Your task to perform on an android device: Clear the shopping cart on amazon.com. Add alienware area 51 to the cart on amazon.com, then select checkout. Image 0: 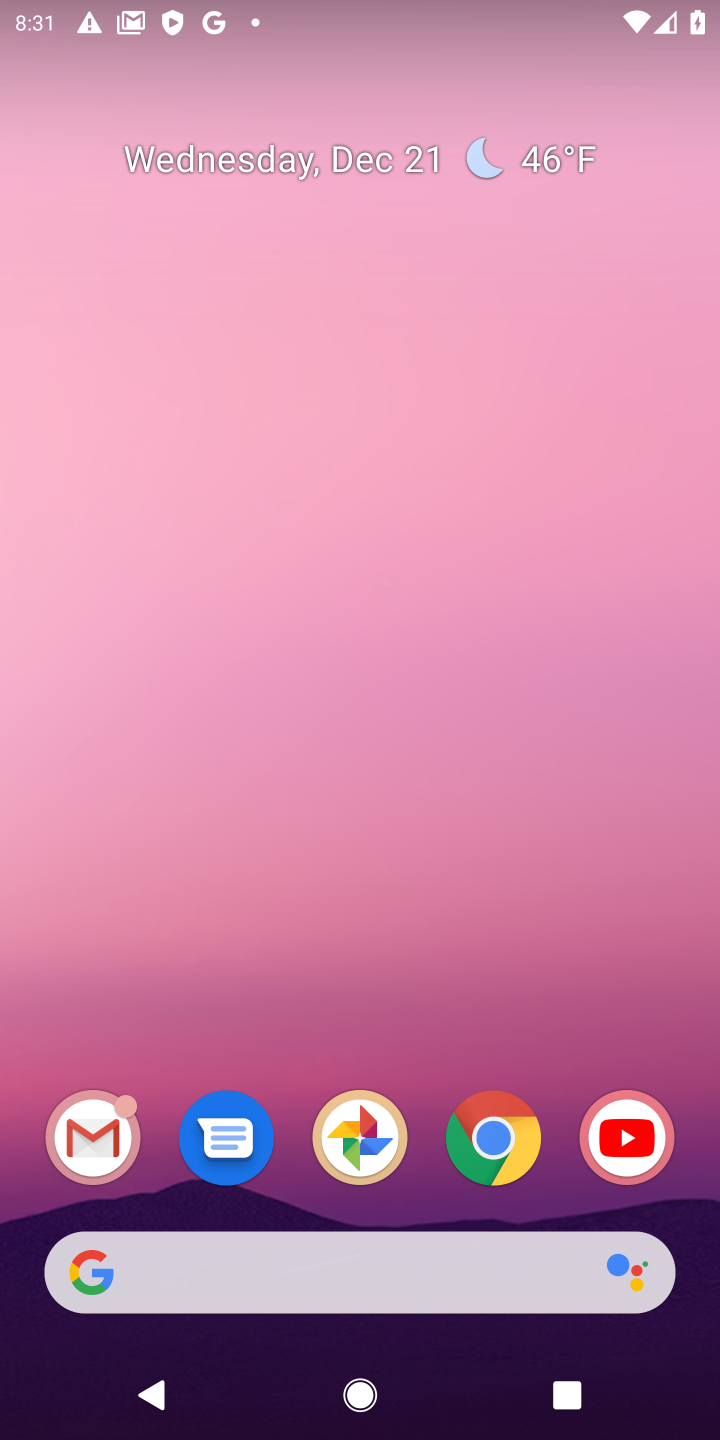
Step 0: click (503, 1148)
Your task to perform on an android device: Clear the shopping cart on amazon.com. Add alienware area 51 to the cart on amazon.com, then select checkout. Image 1: 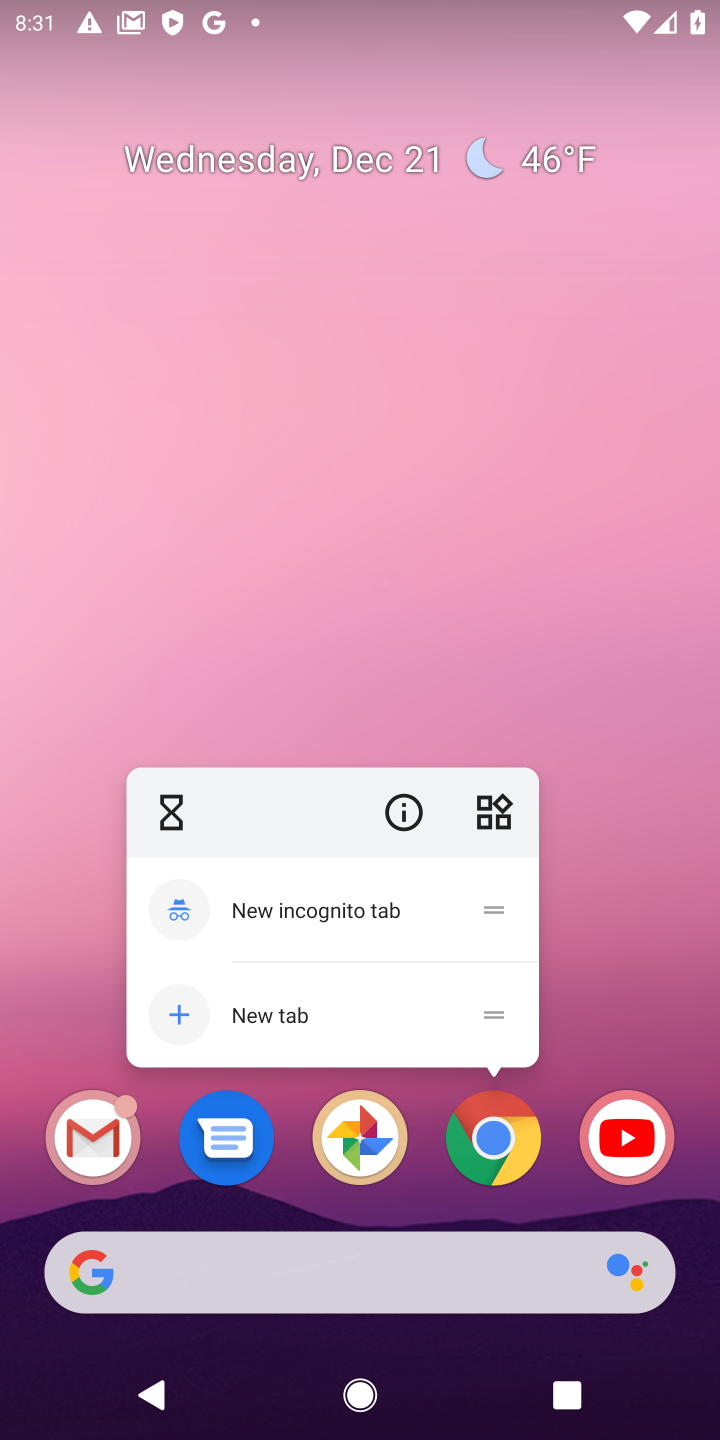
Step 1: click (503, 1148)
Your task to perform on an android device: Clear the shopping cart on amazon.com. Add alienware area 51 to the cart on amazon.com, then select checkout. Image 2: 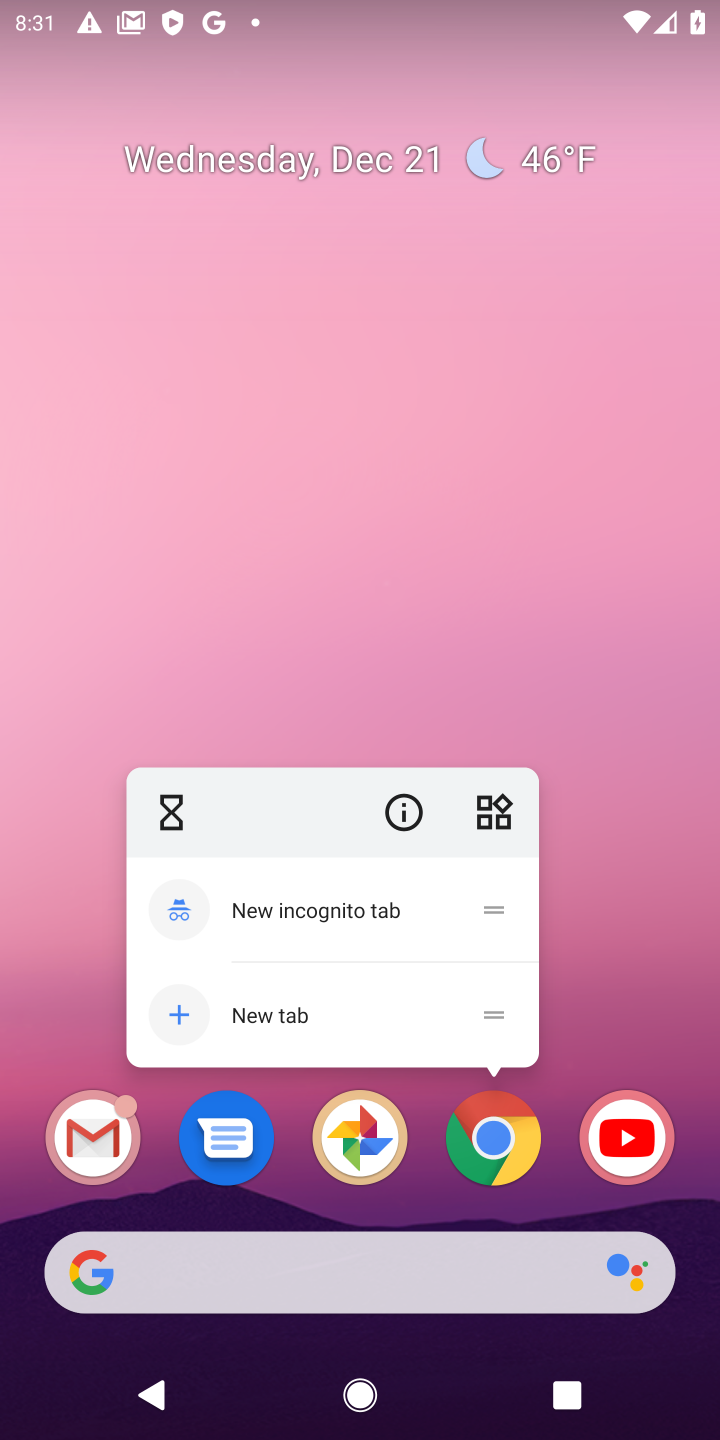
Step 2: click (503, 1148)
Your task to perform on an android device: Clear the shopping cart on amazon.com. Add alienware area 51 to the cart on amazon.com, then select checkout. Image 3: 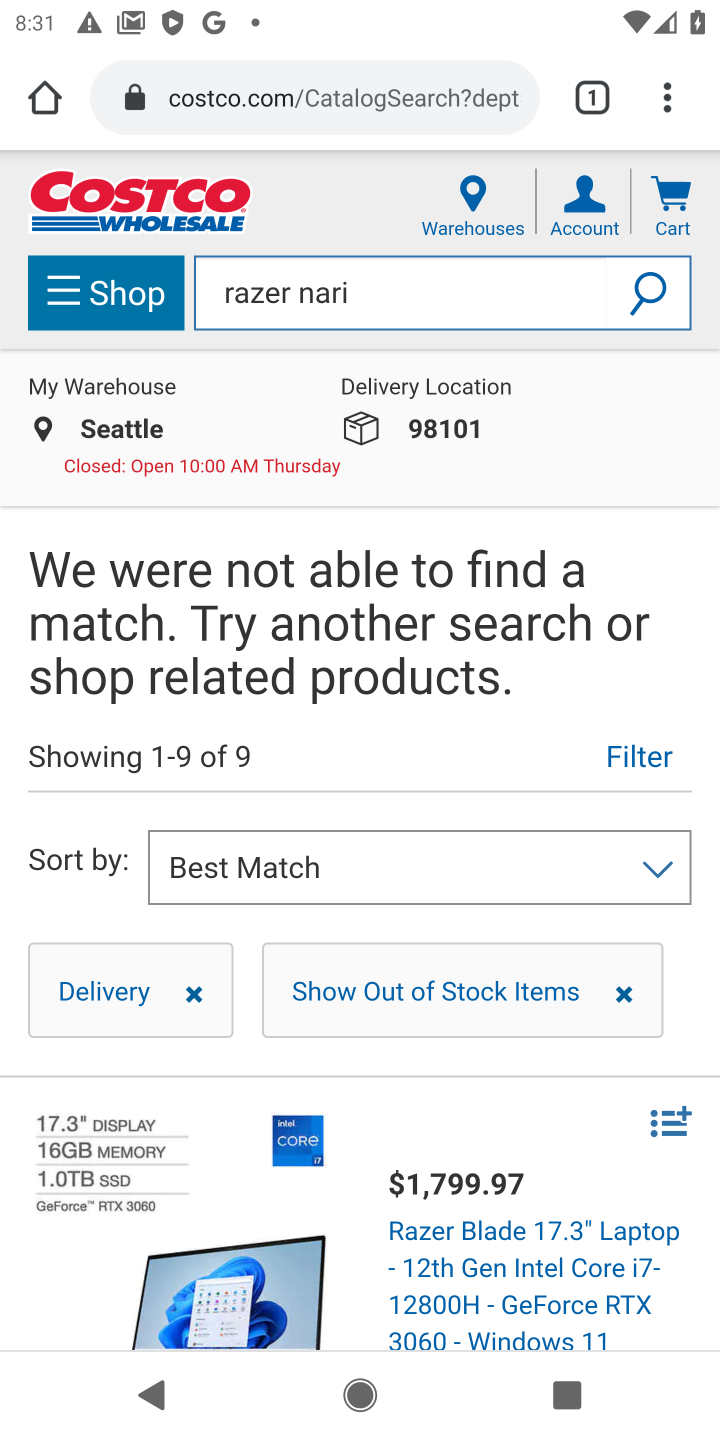
Step 3: click (260, 94)
Your task to perform on an android device: Clear the shopping cart on amazon.com. Add alienware area 51 to the cart on amazon.com, then select checkout. Image 4: 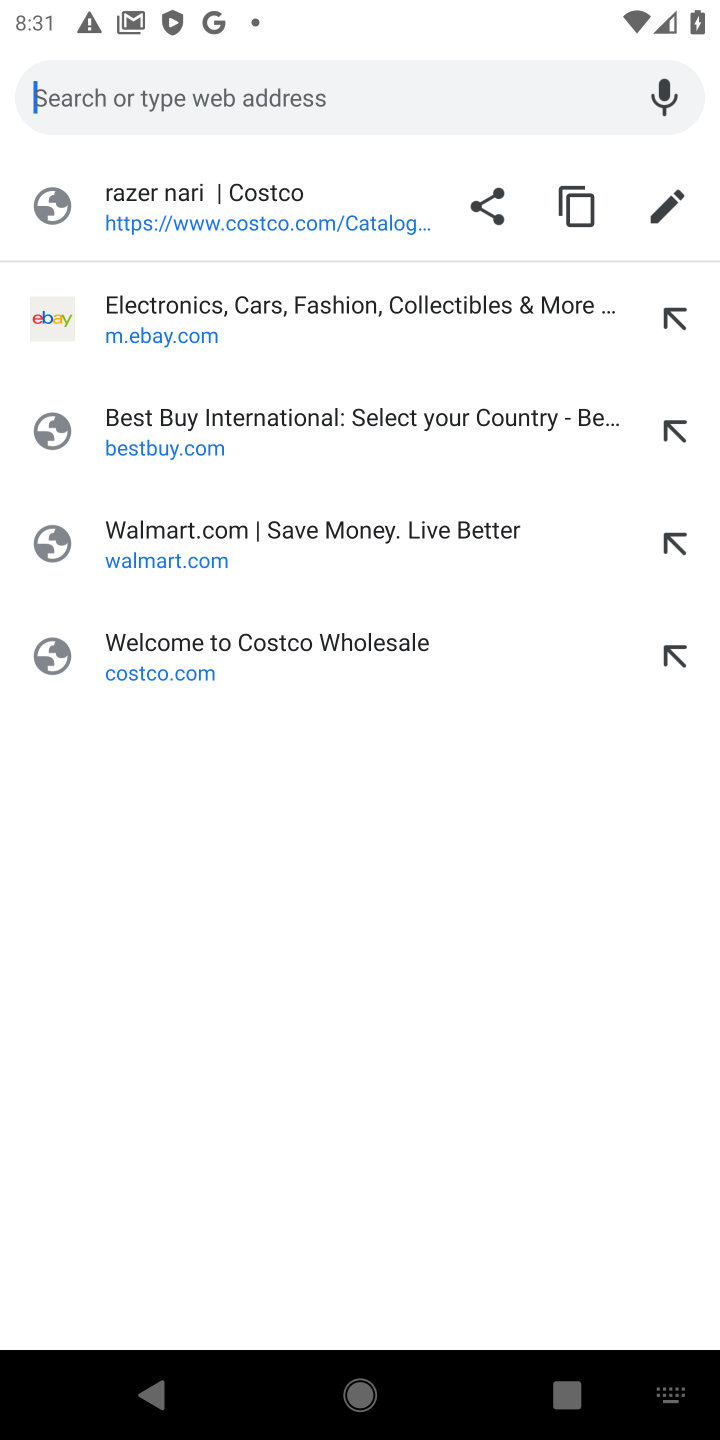
Step 4: type "amazon.com"
Your task to perform on an android device: Clear the shopping cart on amazon.com. Add alienware area 51 to the cart on amazon.com, then select checkout. Image 5: 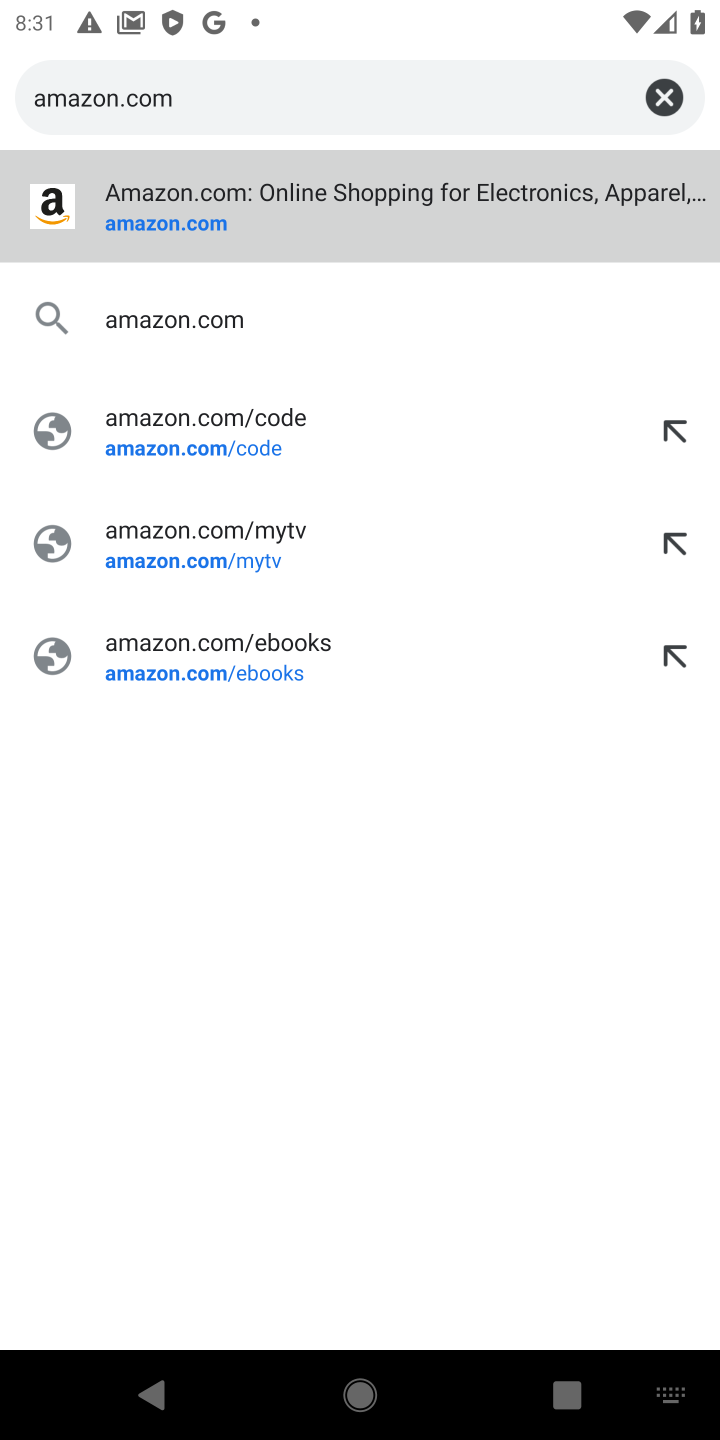
Step 5: click (137, 207)
Your task to perform on an android device: Clear the shopping cart on amazon.com. Add alienware area 51 to the cart on amazon.com, then select checkout. Image 6: 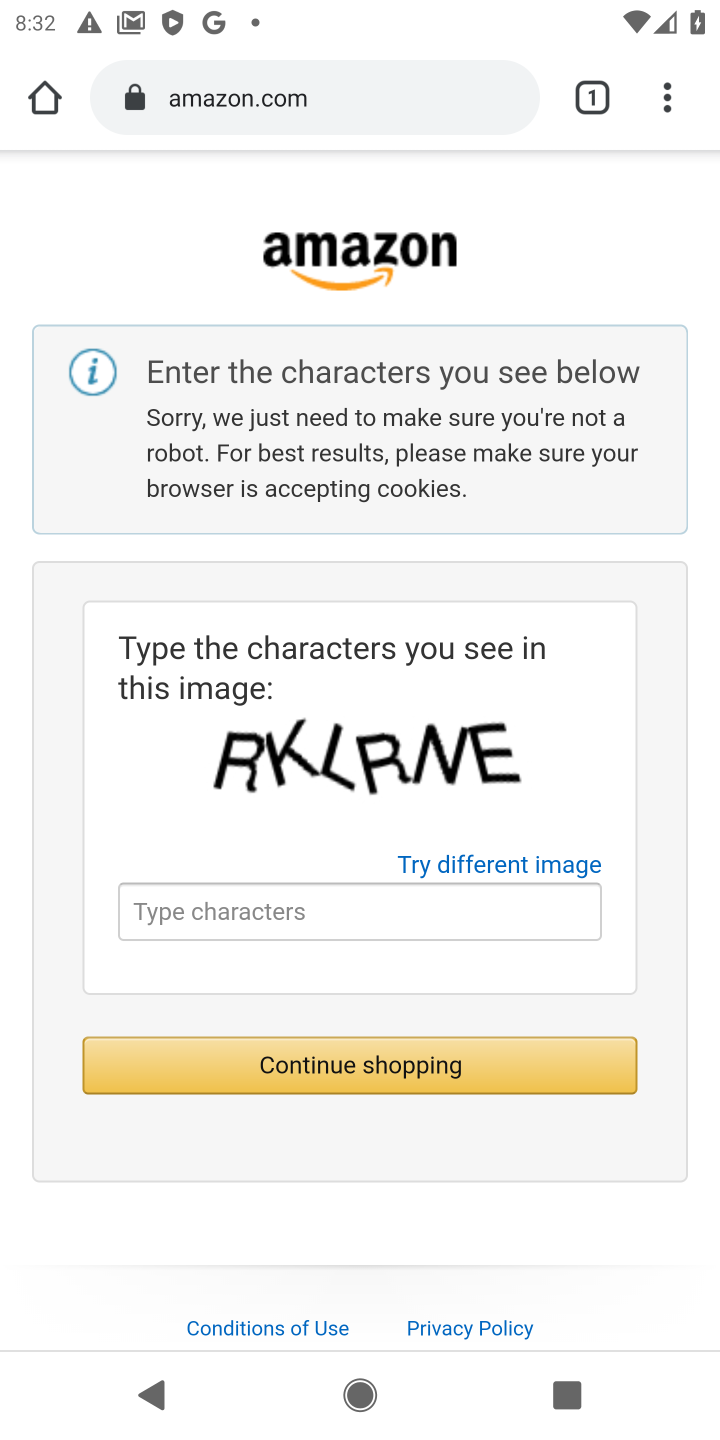
Step 6: click (221, 911)
Your task to perform on an android device: Clear the shopping cart on amazon.com. Add alienware area 51 to the cart on amazon.com, then select checkout. Image 7: 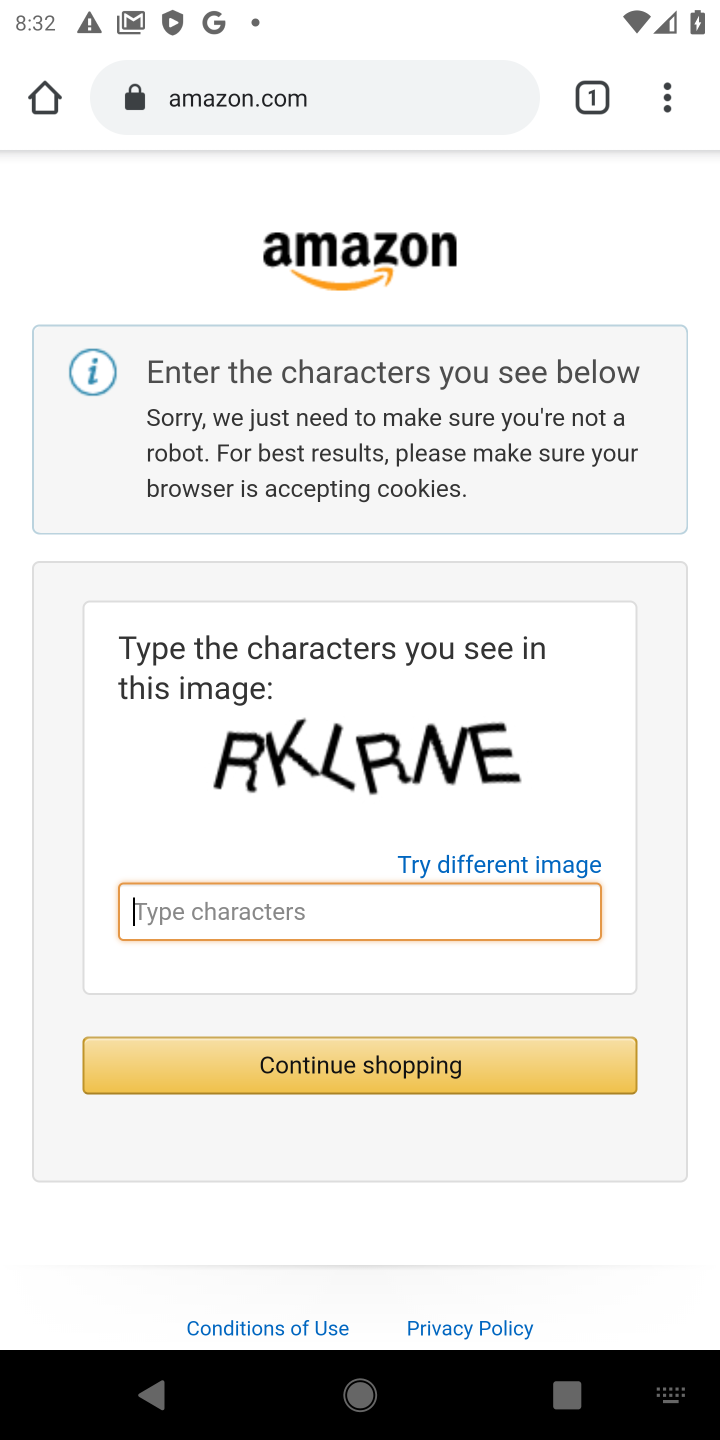
Step 7: type "RKLRNE"
Your task to perform on an android device: Clear the shopping cart on amazon.com. Add alienware area 51 to the cart on amazon.com, then select checkout. Image 8: 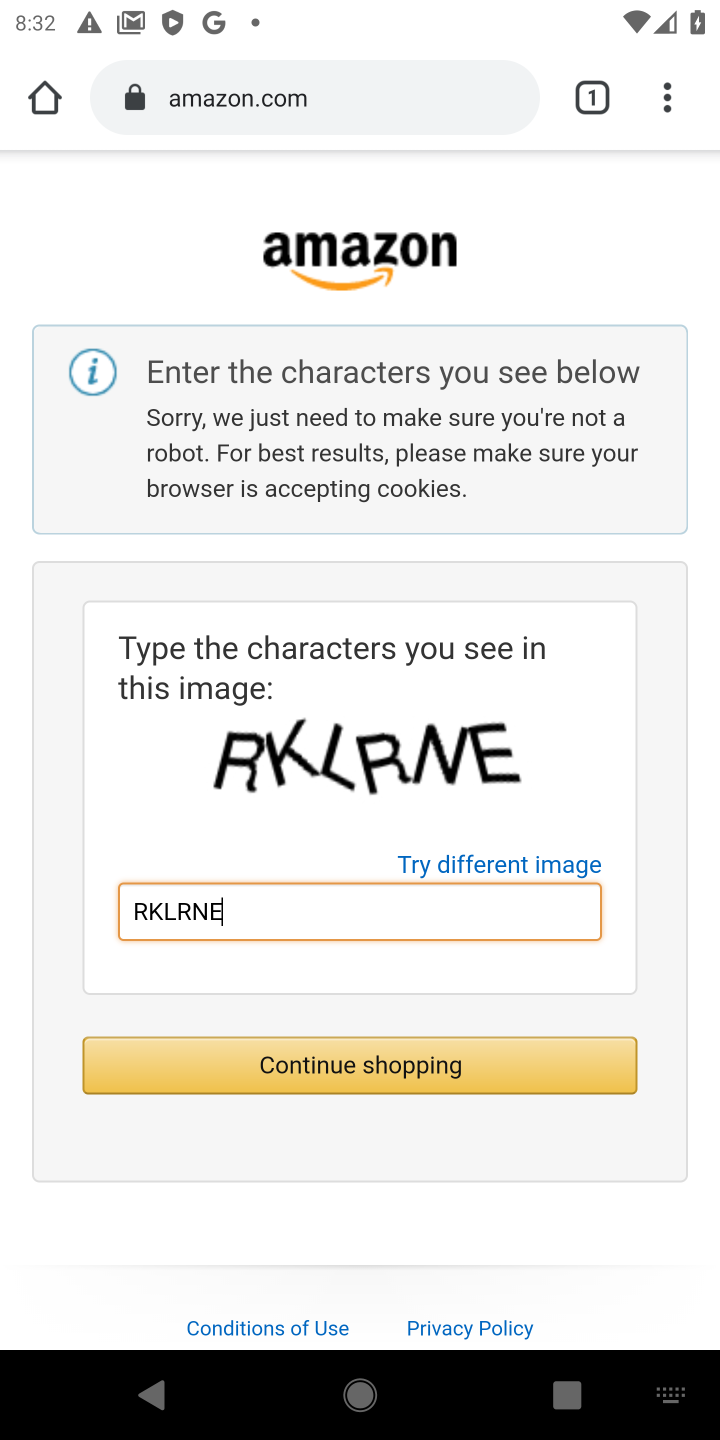
Step 8: click (283, 1069)
Your task to perform on an android device: Clear the shopping cart on amazon.com. Add alienware area 51 to the cart on amazon.com, then select checkout. Image 9: 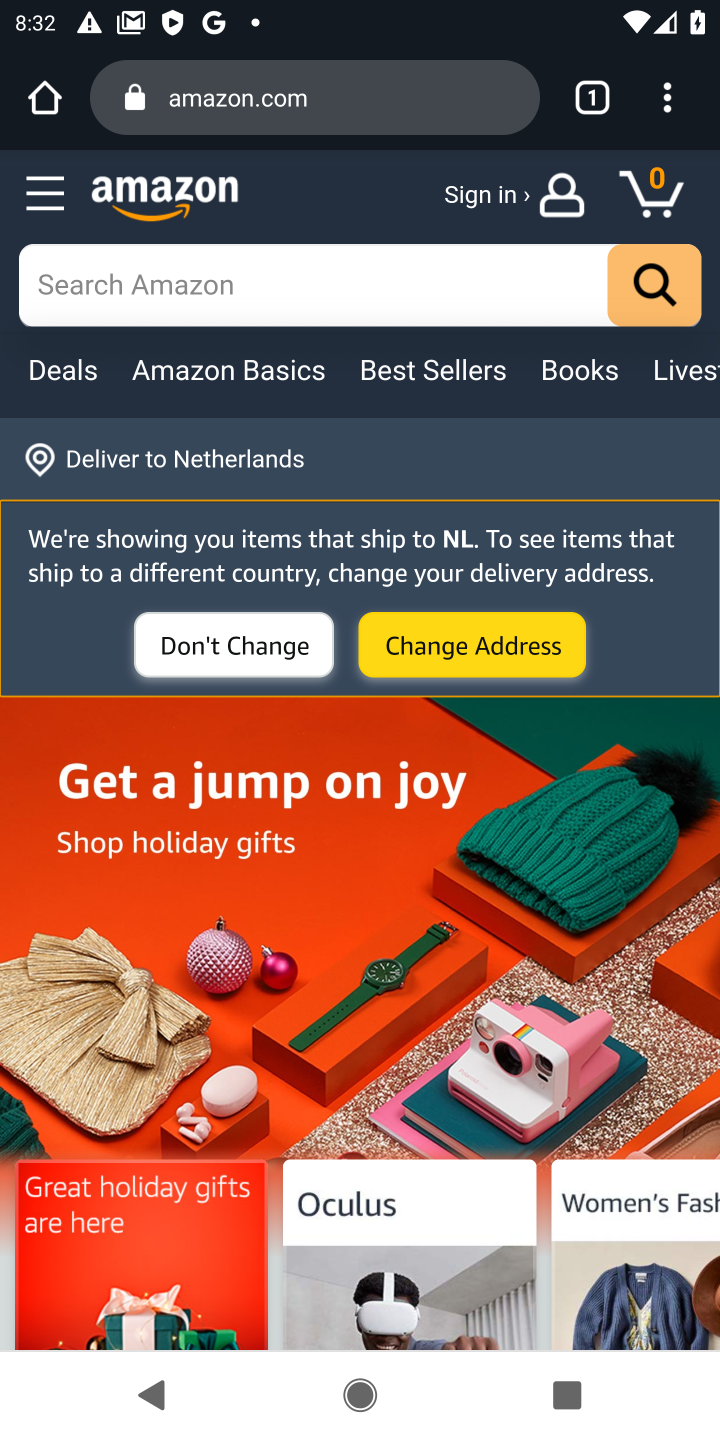
Step 9: click (655, 194)
Your task to perform on an android device: Clear the shopping cart on amazon.com. Add alienware area 51 to the cart on amazon.com, then select checkout. Image 10: 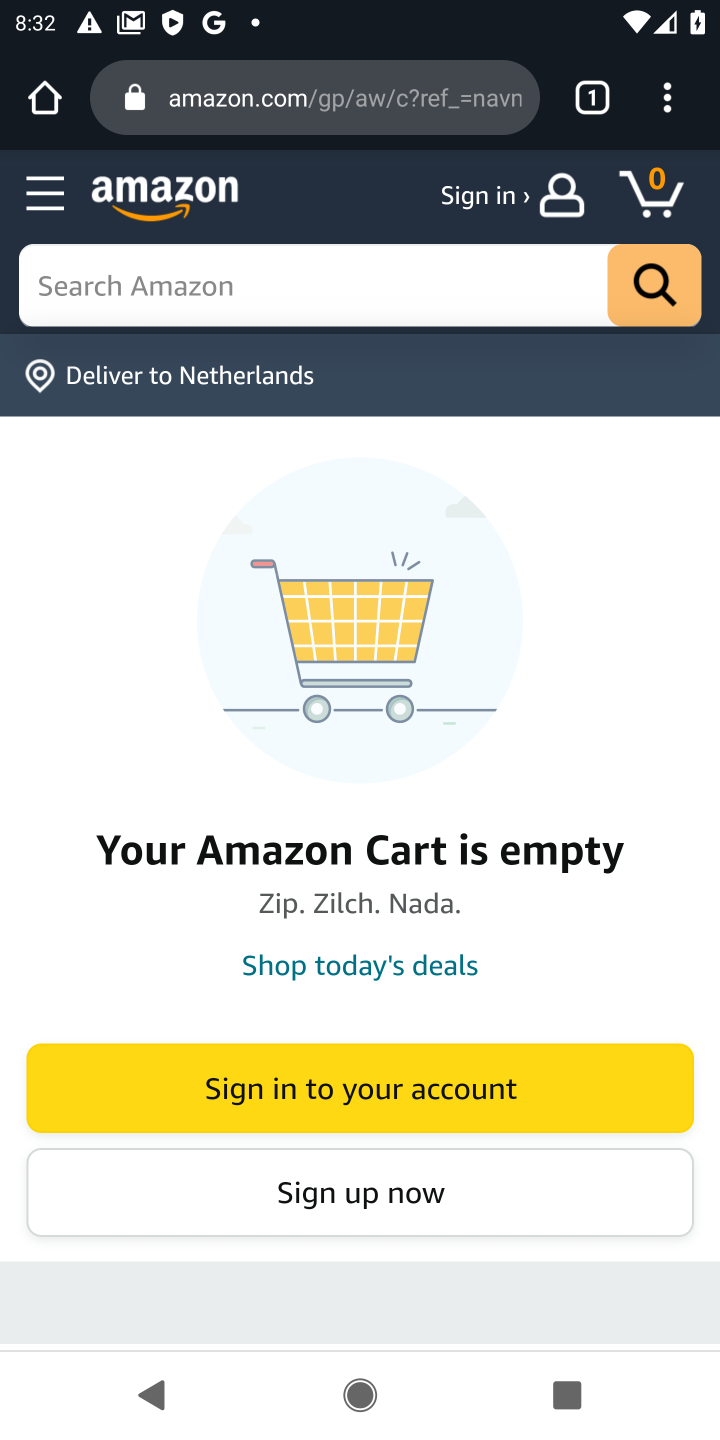
Step 10: click (74, 299)
Your task to perform on an android device: Clear the shopping cart on amazon.com. Add alienware area 51 to the cart on amazon.com, then select checkout. Image 11: 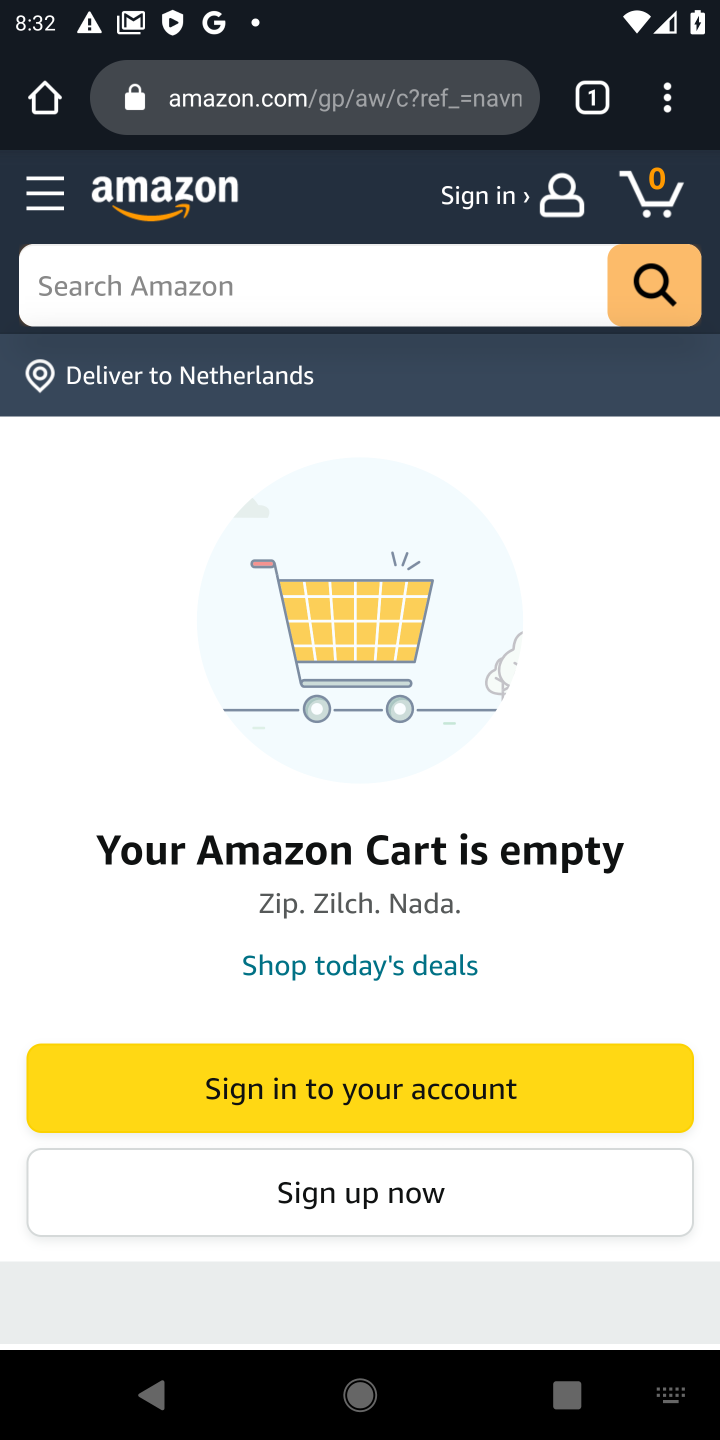
Step 11: type "alienware area 51"
Your task to perform on an android device: Clear the shopping cart on amazon.com. Add alienware area 51 to the cart on amazon.com, then select checkout. Image 12: 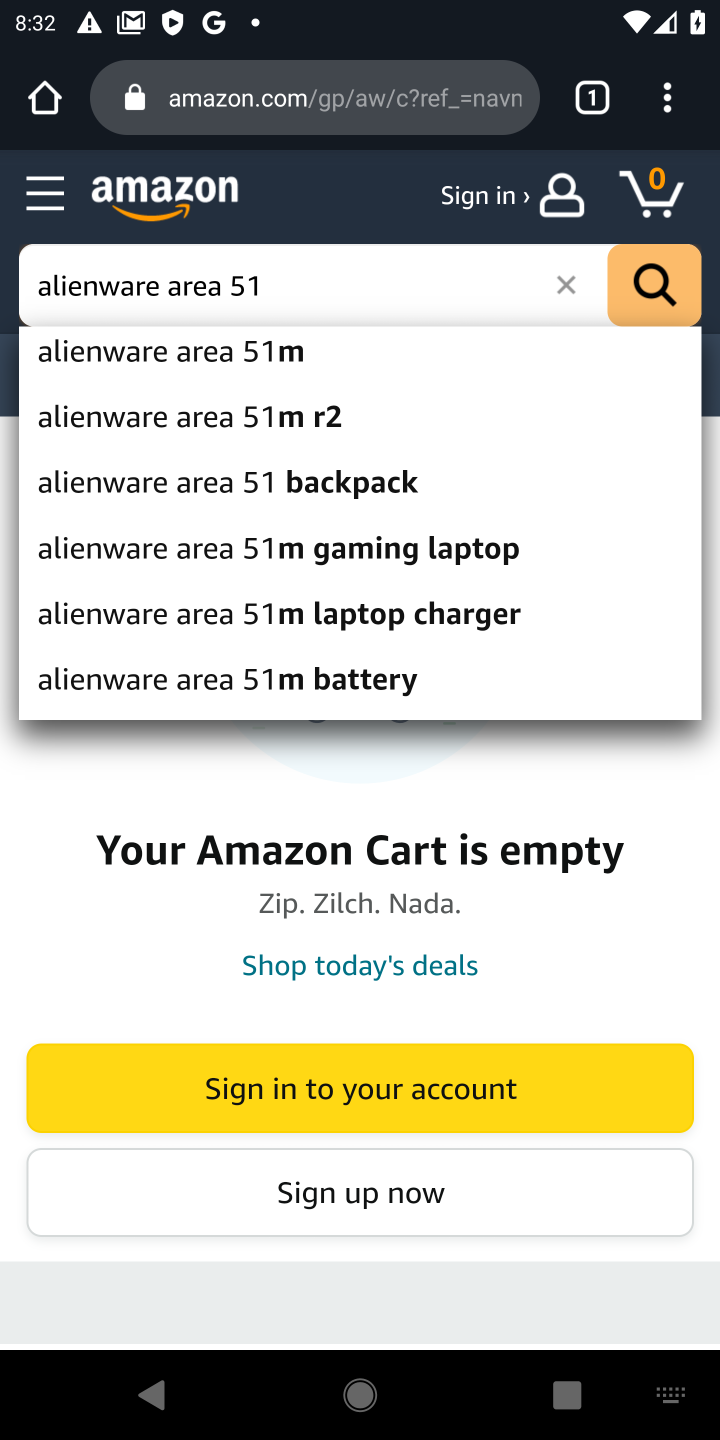
Step 12: click (658, 286)
Your task to perform on an android device: Clear the shopping cart on amazon.com. Add alienware area 51 to the cart on amazon.com, then select checkout. Image 13: 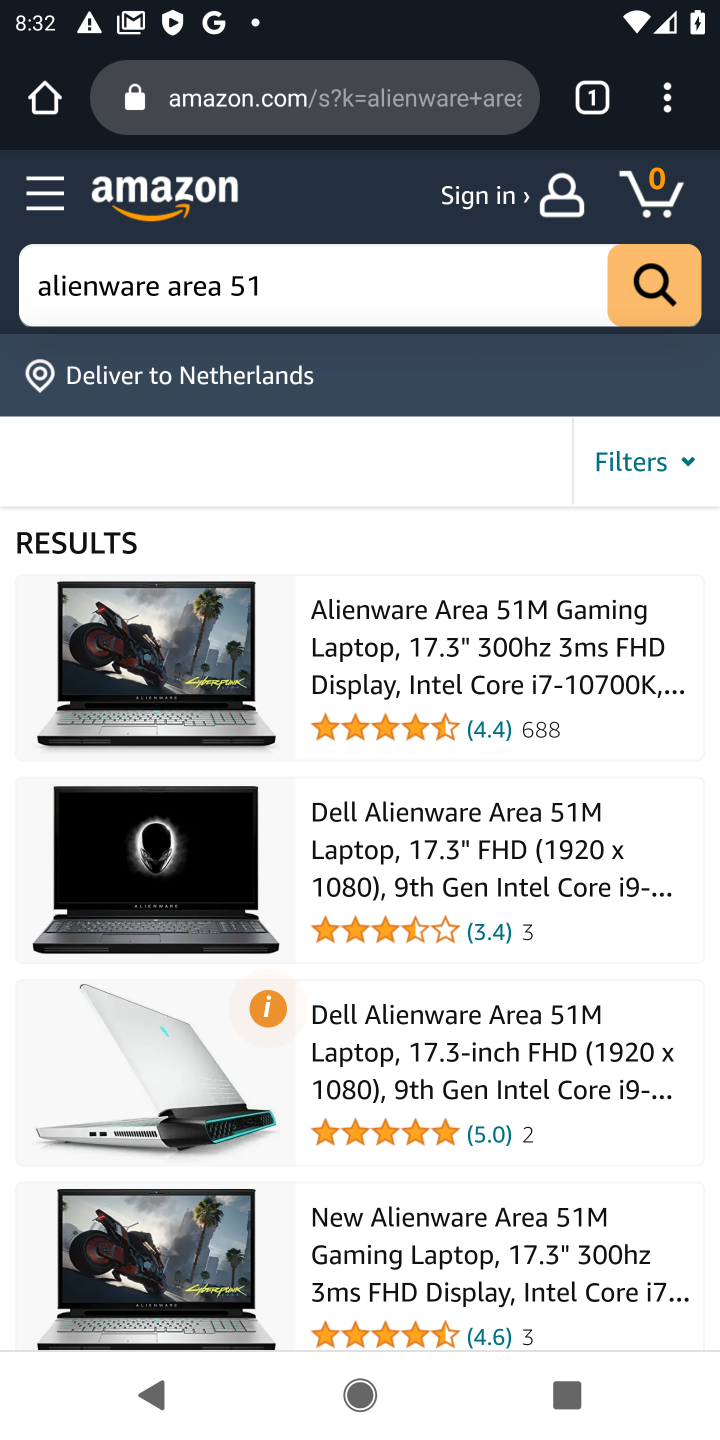
Step 13: drag from (444, 977) to (429, 619)
Your task to perform on an android device: Clear the shopping cart on amazon.com. Add alienware area 51 to the cart on amazon.com, then select checkout. Image 14: 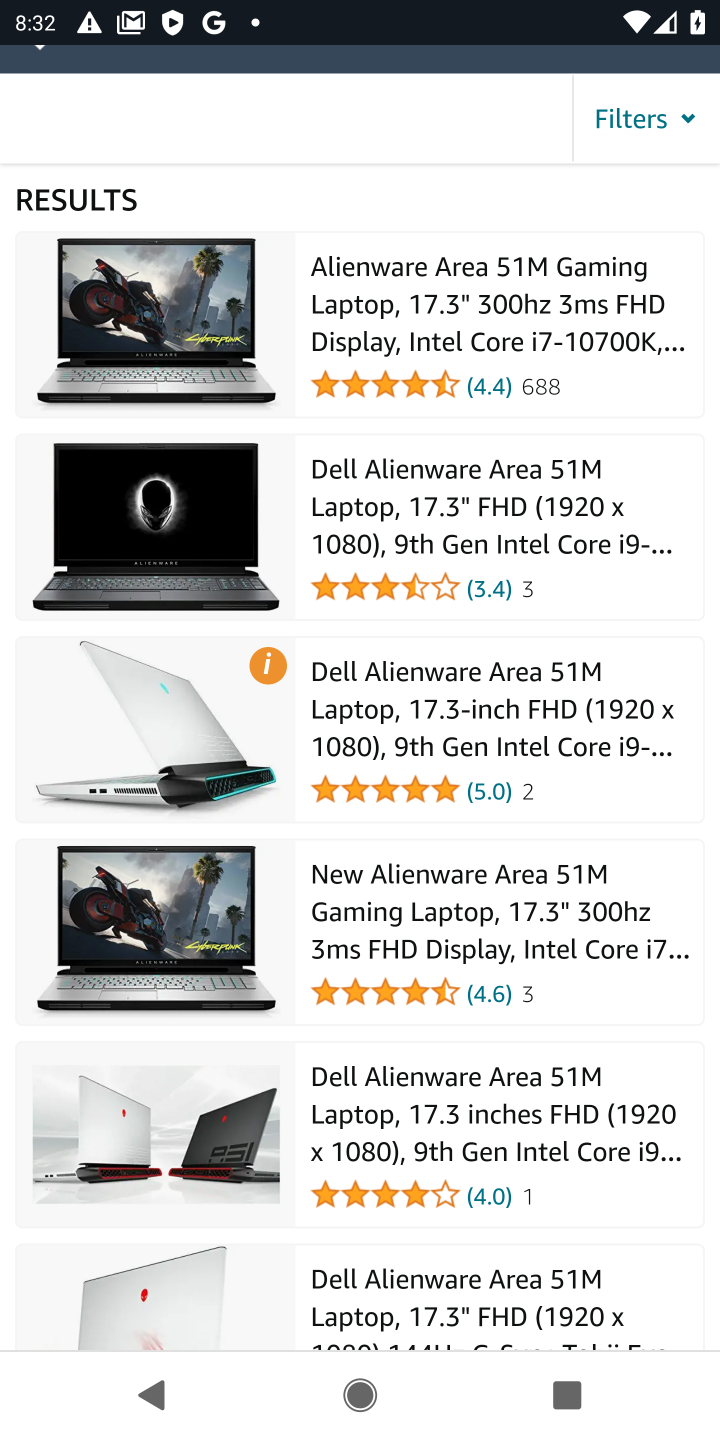
Step 14: drag from (400, 1083) to (376, 667)
Your task to perform on an android device: Clear the shopping cart on amazon.com. Add alienware area 51 to the cart on amazon.com, then select checkout. Image 15: 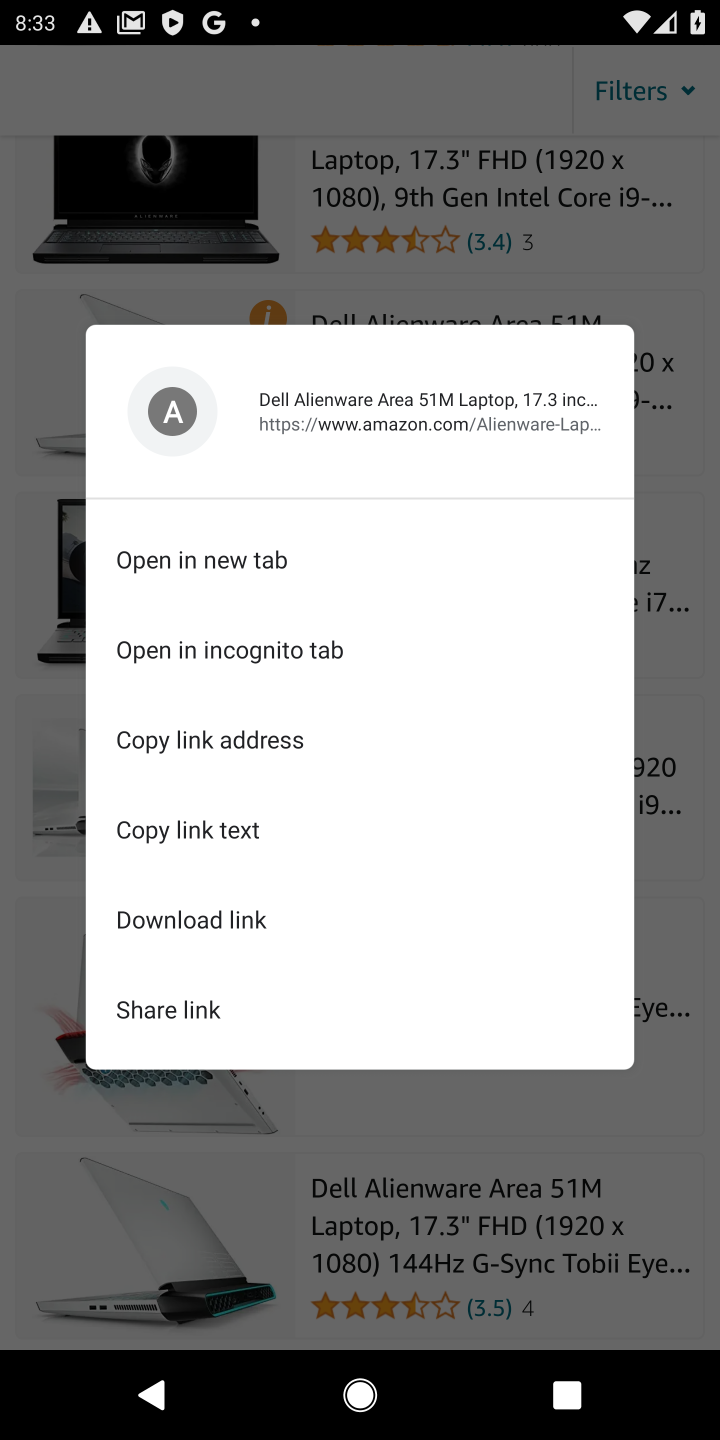
Step 15: drag from (665, 1091) to (674, 917)
Your task to perform on an android device: Clear the shopping cart on amazon.com. Add alienware area 51 to the cart on amazon.com, then select checkout. Image 16: 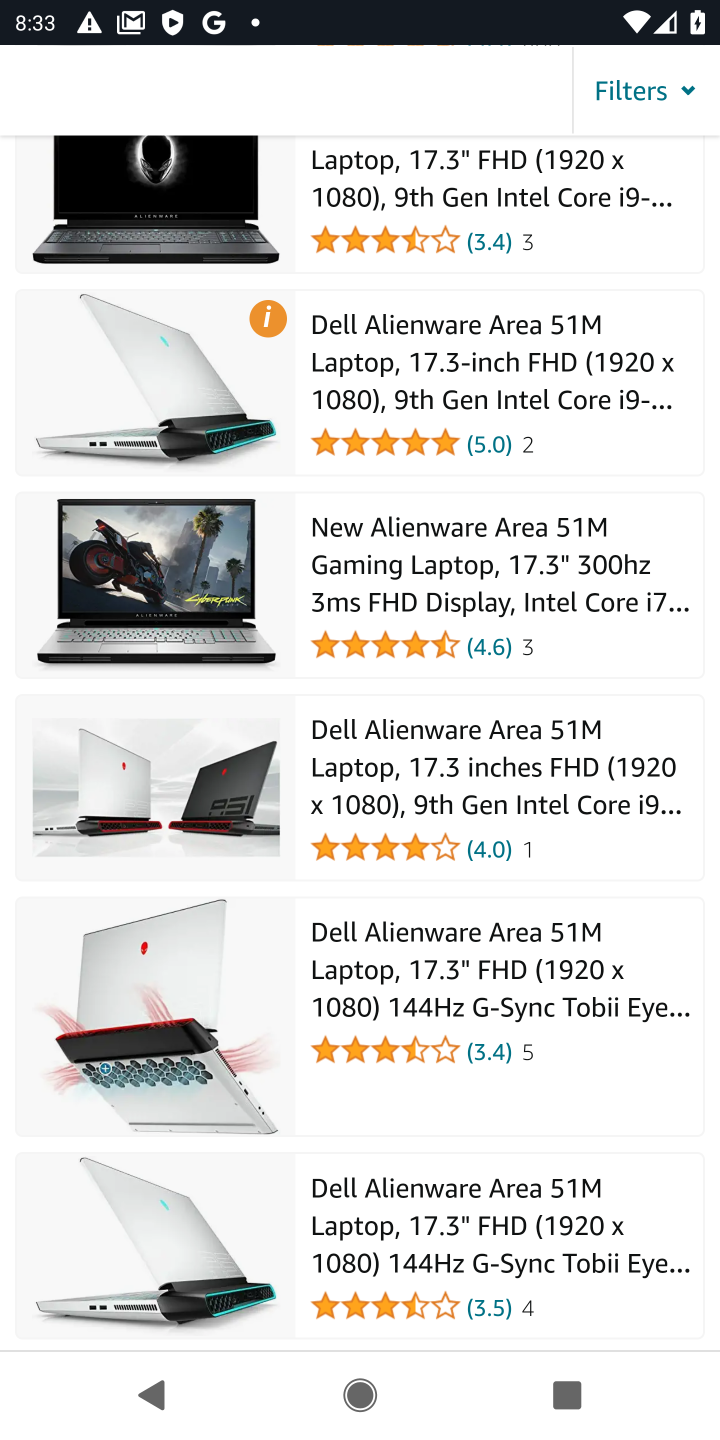
Step 16: drag from (452, 1093) to (472, 699)
Your task to perform on an android device: Clear the shopping cart on amazon.com. Add alienware area 51 to the cart on amazon.com, then select checkout. Image 17: 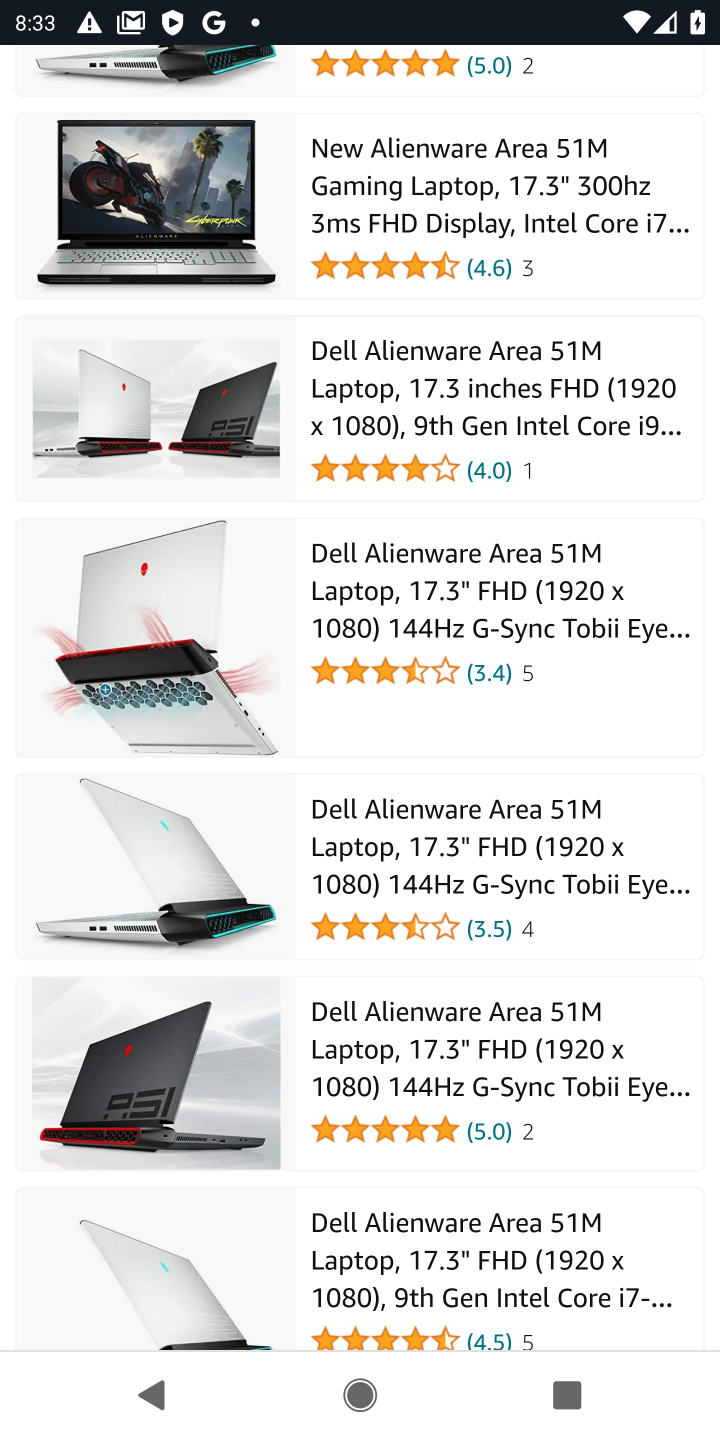
Step 17: drag from (432, 1035) to (444, 672)
Your task to perform on an android device: Clear the shopping cart on amazon.com. Add alienware area 51 to the cart on amazon.com, then select checkout. Image 18: 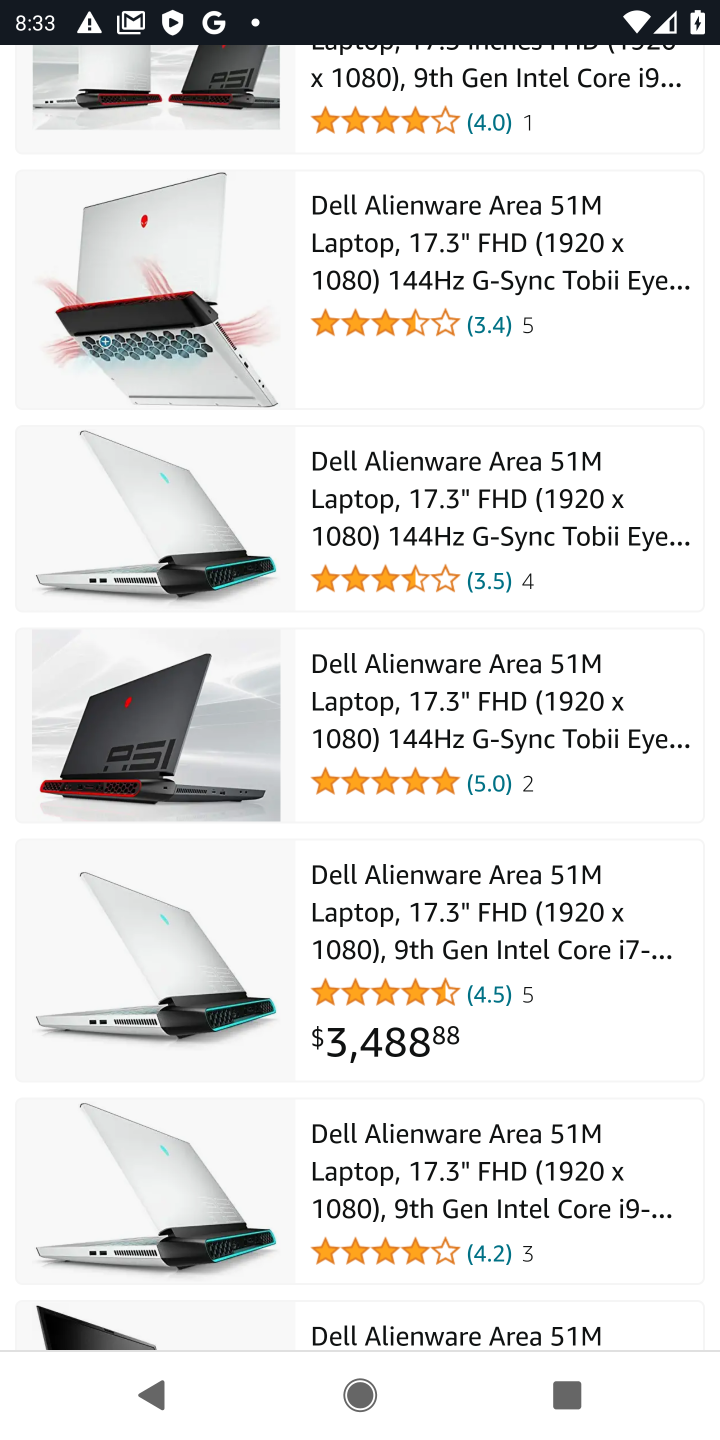
Step 18: drag from (407, 1094) to (390, 689)
Your task to perform on an android device: Clear the shopping cart on amazon.com. Add alienware area 51 to the cart on amazon.com, then select checkout. Image 19: 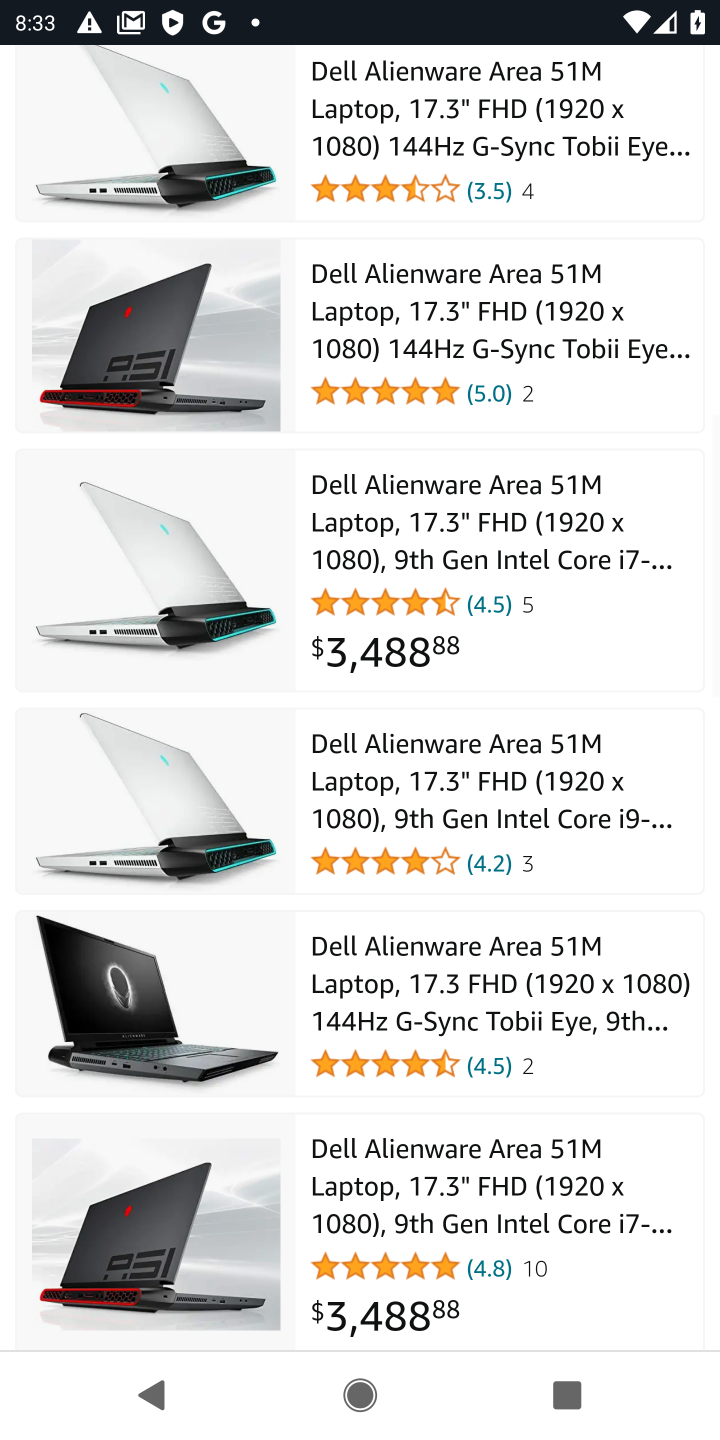
Step 19: drag from (505, 1124) to (470, 636)
Your task to perform on an android device: Clear the shopping cart on amazon.com. Add alienware area 51 to the cart on amazon.com, then select checkout. Image 20: 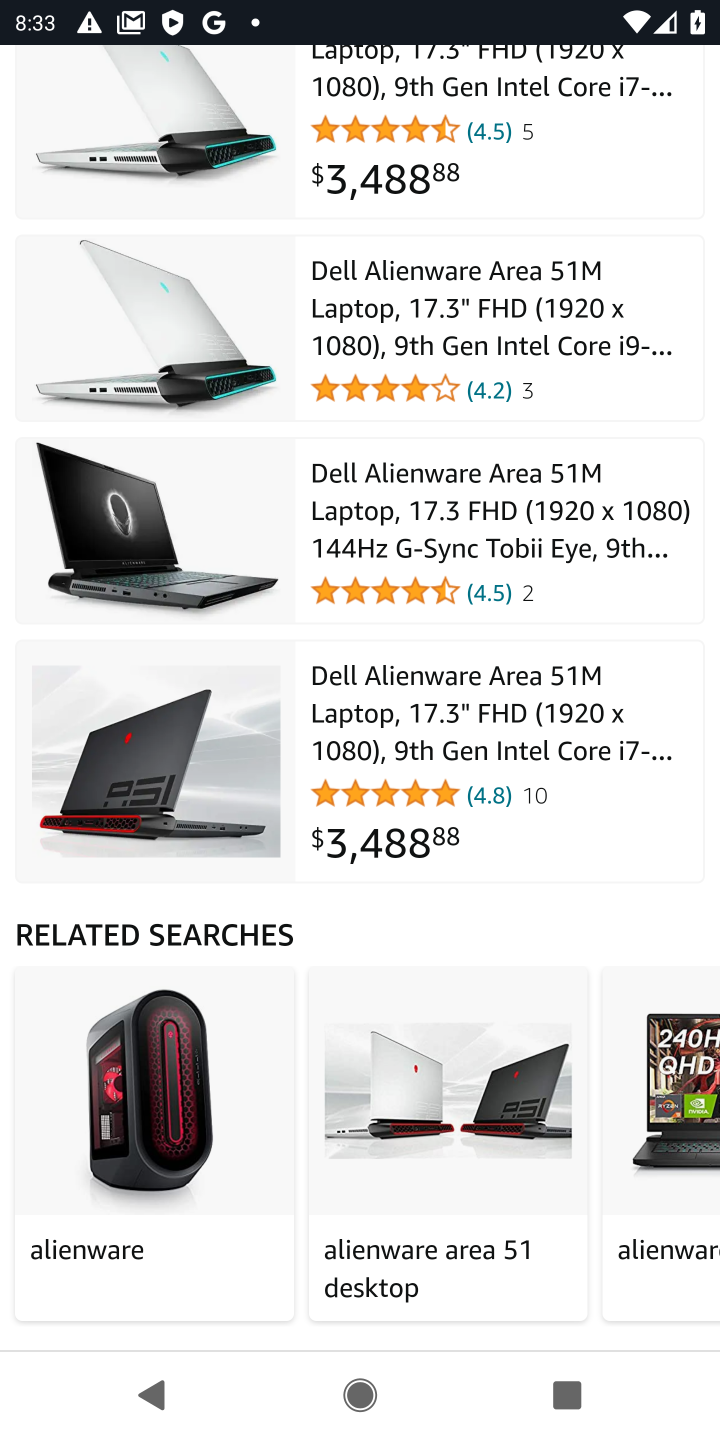
Step 20: drag from (493, 1181) to (436, 695)
Your task to perform on an android device: Clear the shopping cart on amazon.com. Add alienware area 51 to the cart on amazon.com, then select checkout. Image 21: 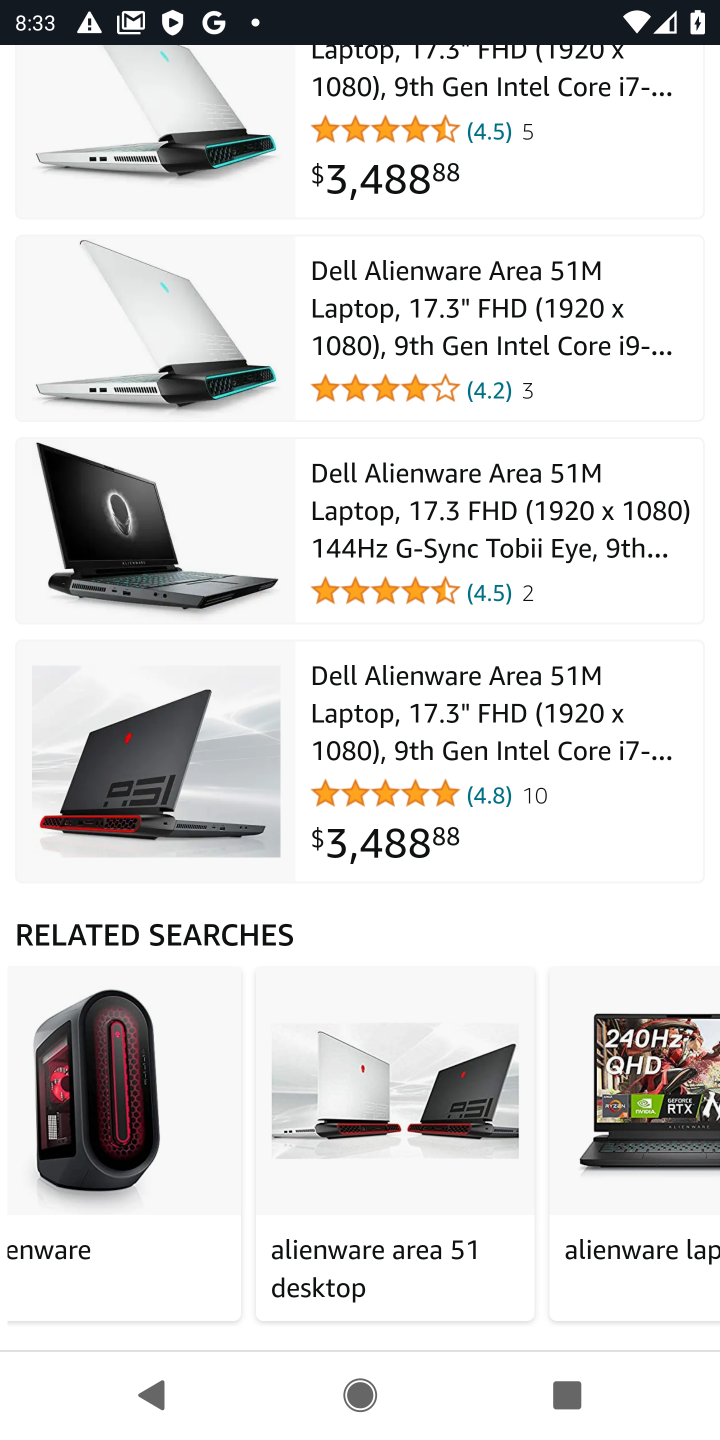
Step 21: drag from (550, 1110) to (535, 774)
Your task to perform on an android device: Clear the shopping cart on amazon.com. Add alienware area 51 to the cart on amazon.com, then select checkout. Image 22: 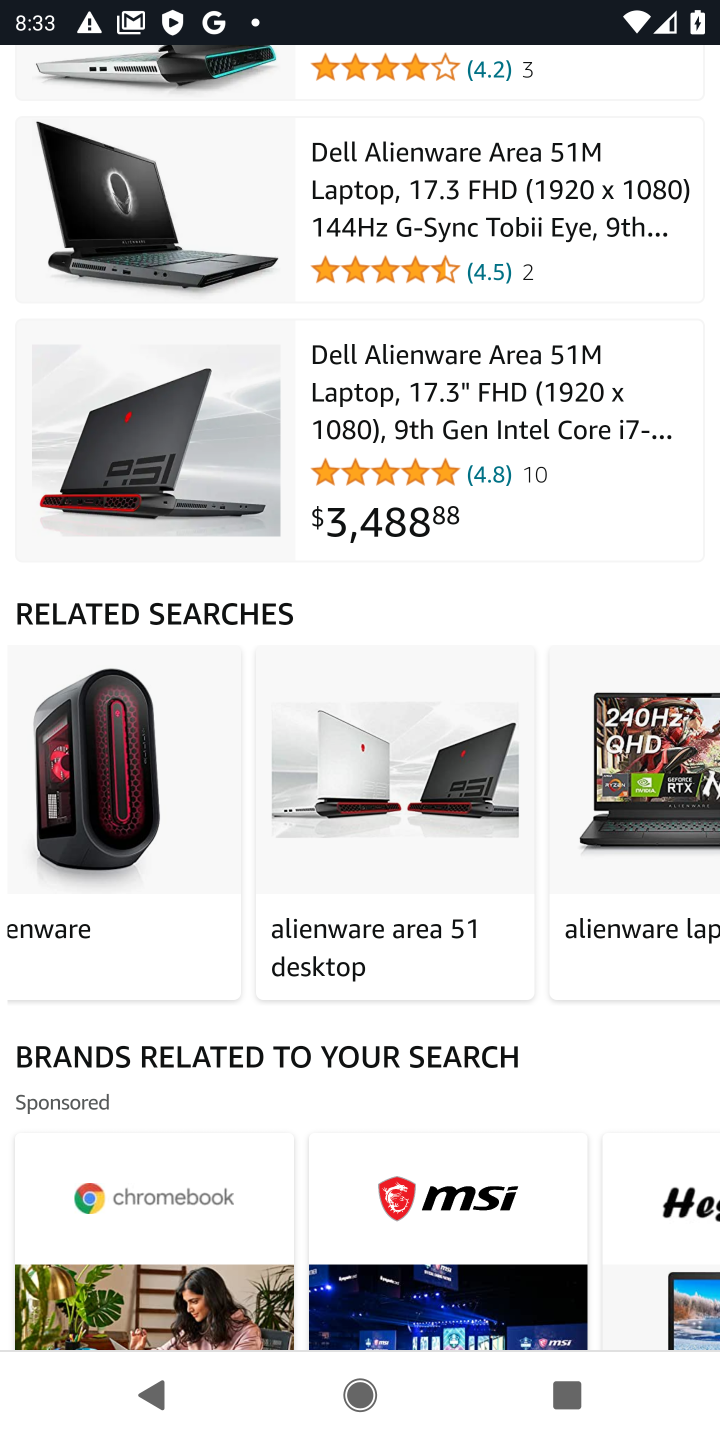
Step 22: drag from (460, 1149) to (451, 468)
Your task to perform on an android device: Clear the shopping cart on amazon.com. Add alienware area 51 to the cart on amazon.com, then select checkout. Image 23: 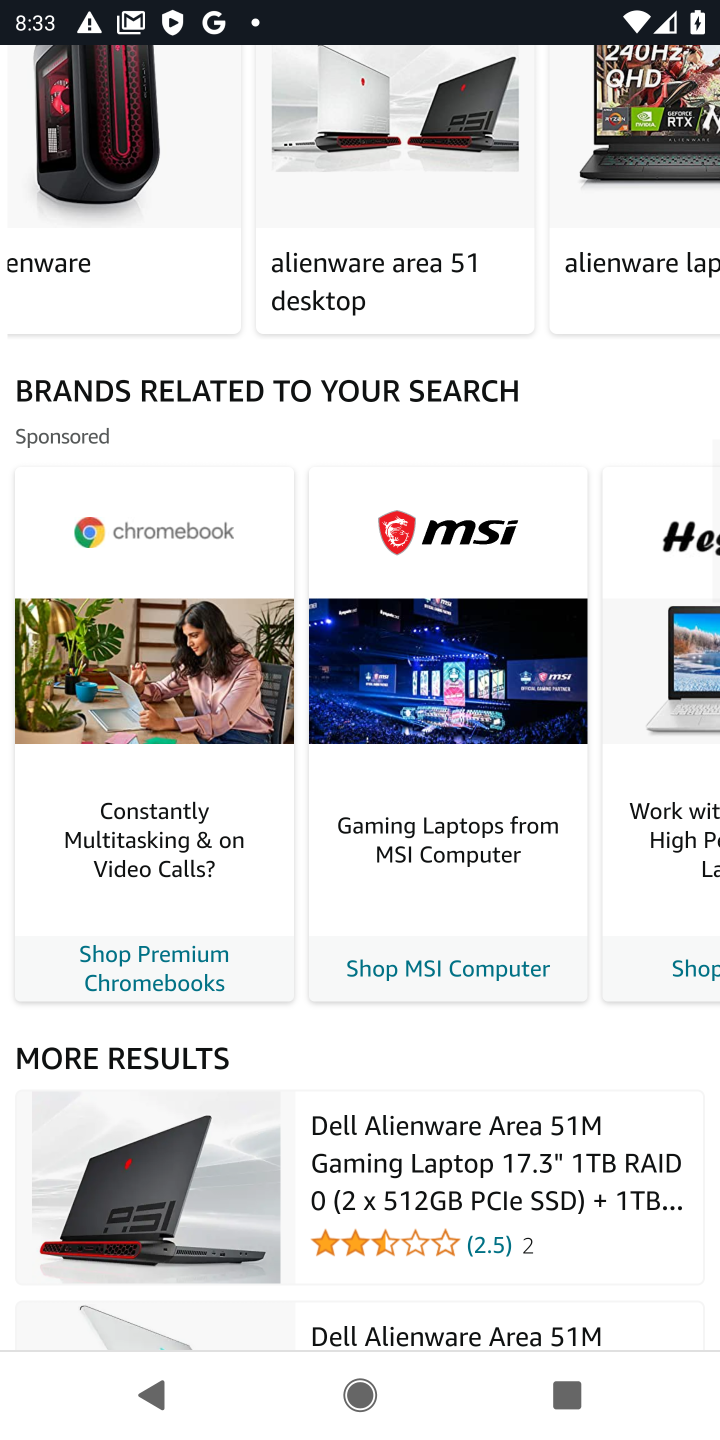
Step 23: drag from (417, 1181) to (390, 717)
Your task to perform on an android device: Clear the shopping cart on amazon.com. Add alienware area 51 to the cart on amazon.com, then select checkout. Image 24: 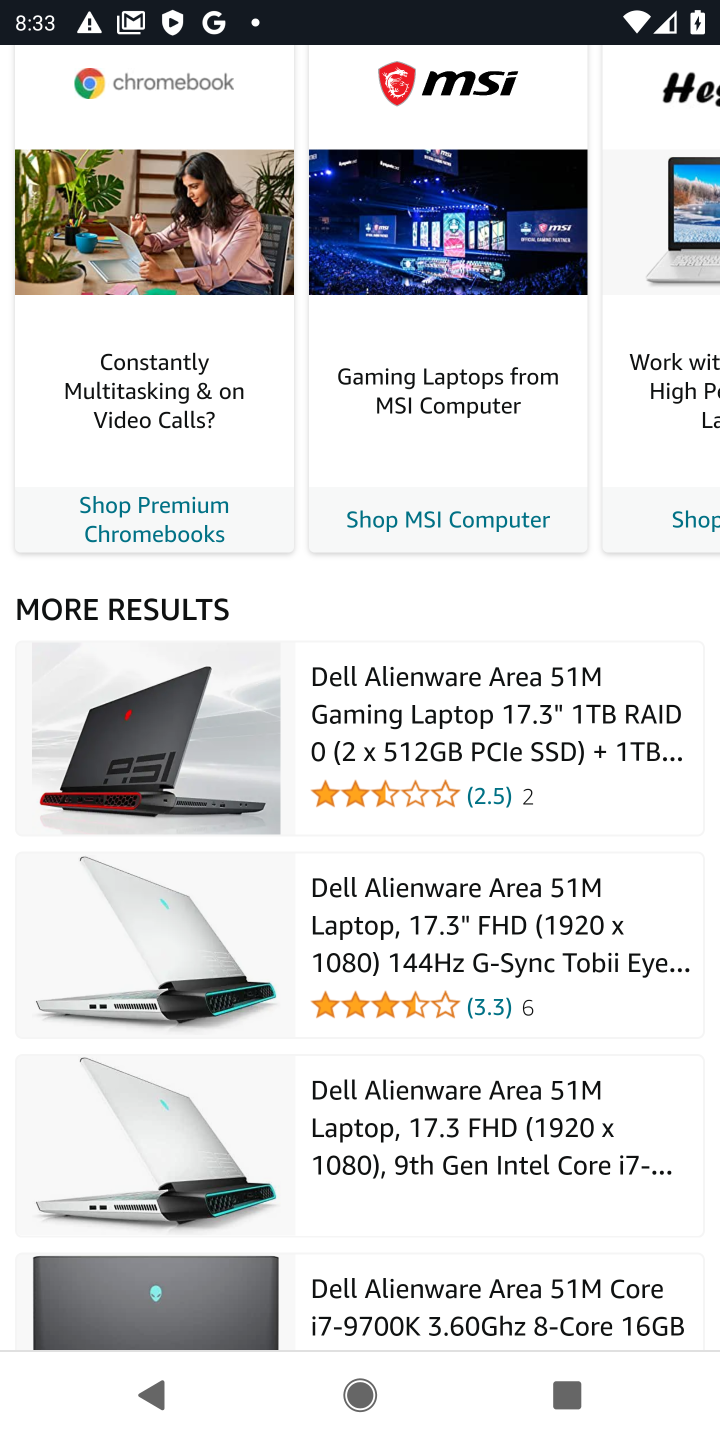
Step 24: drag from (452, 1149) to (434, 821)
Your task to perform on an android device: Clear the shopping cart on amazon.com. Add alienware area 51 to the cart on amazon.com, then select checkout. Image 25: 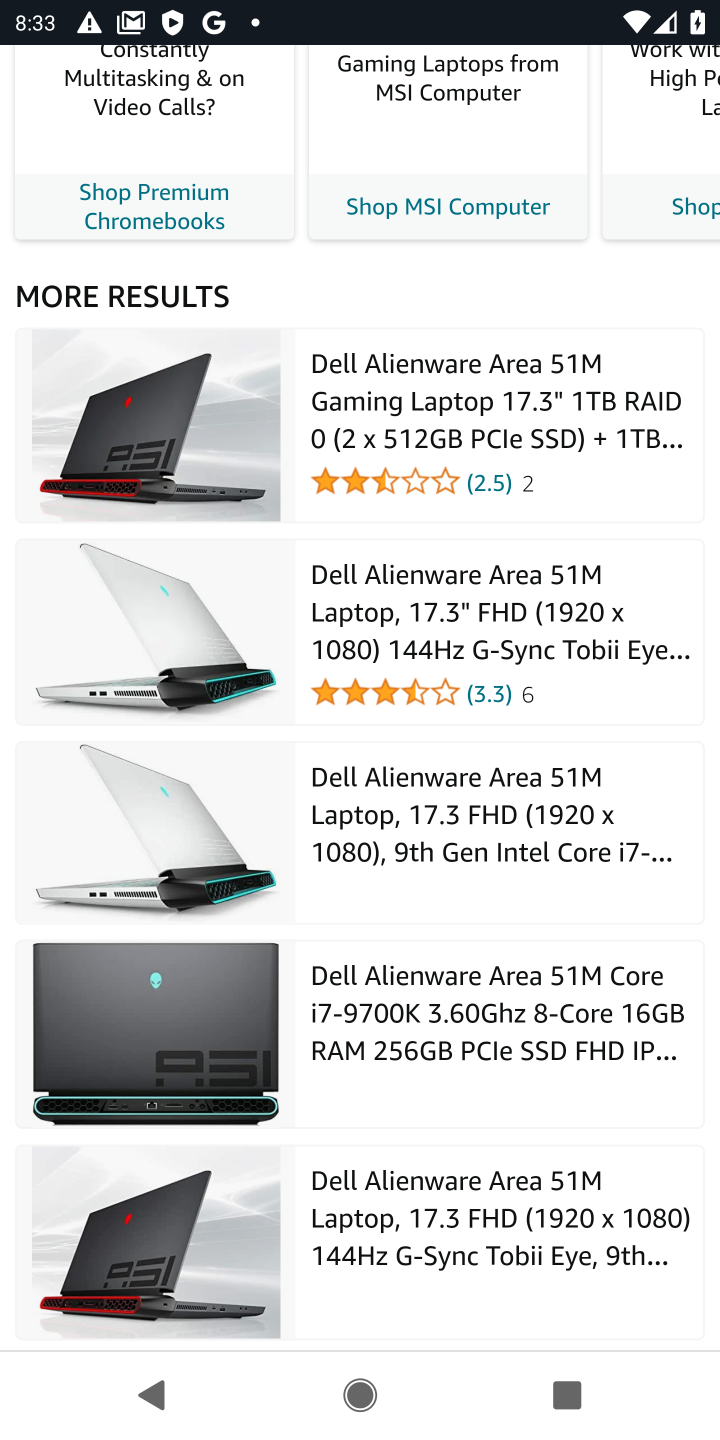
Step 25: drag from (461, 1153) to (422, 774)
Your task to perform on an android device: Clear the shopping cart on amazon.com. Add alienware area 51 to the cart on amazon.com, then select checkout. Image 26: 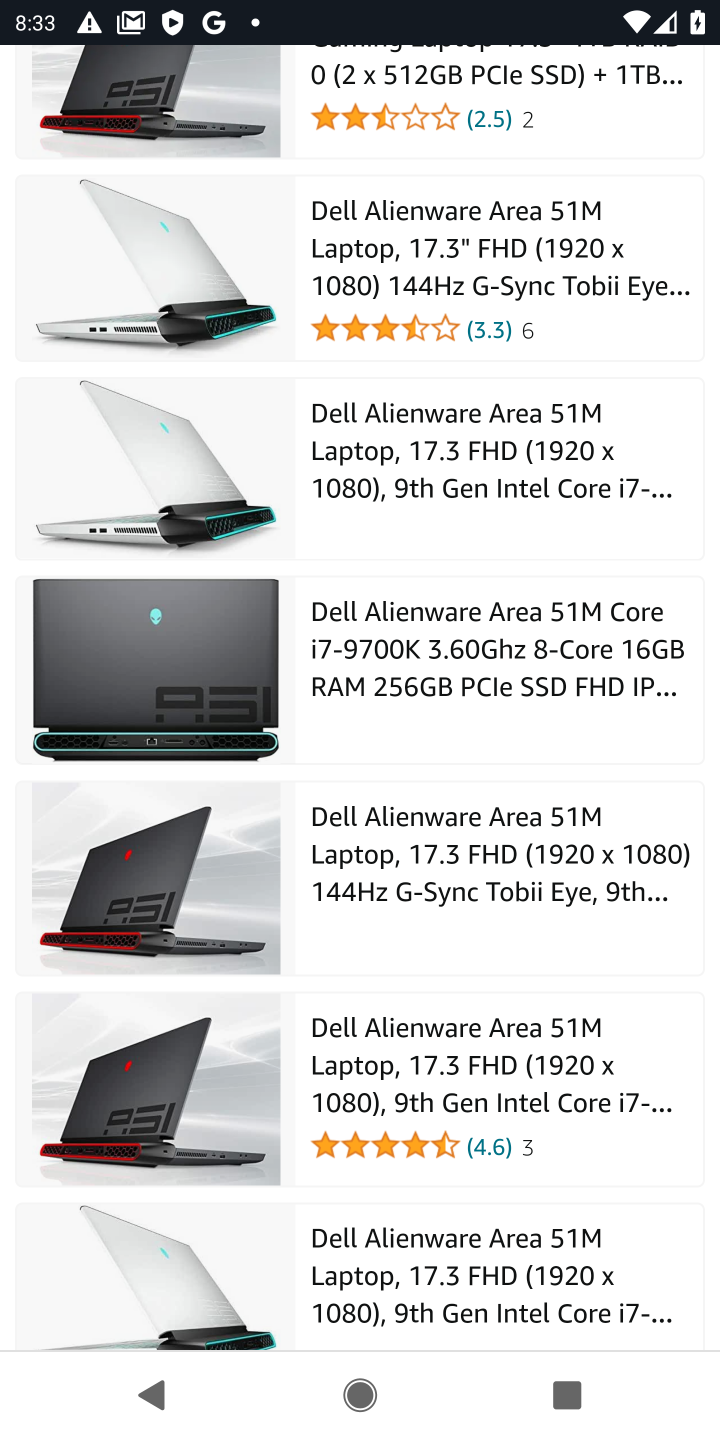
Step 26: drag from (437, 1037) to (413, 541)
Your task to perform on an android device: Clear the shopping cart on amazon.com. Add alienware area 51 to the cart on amazon.com, then select checkout. Image 27: 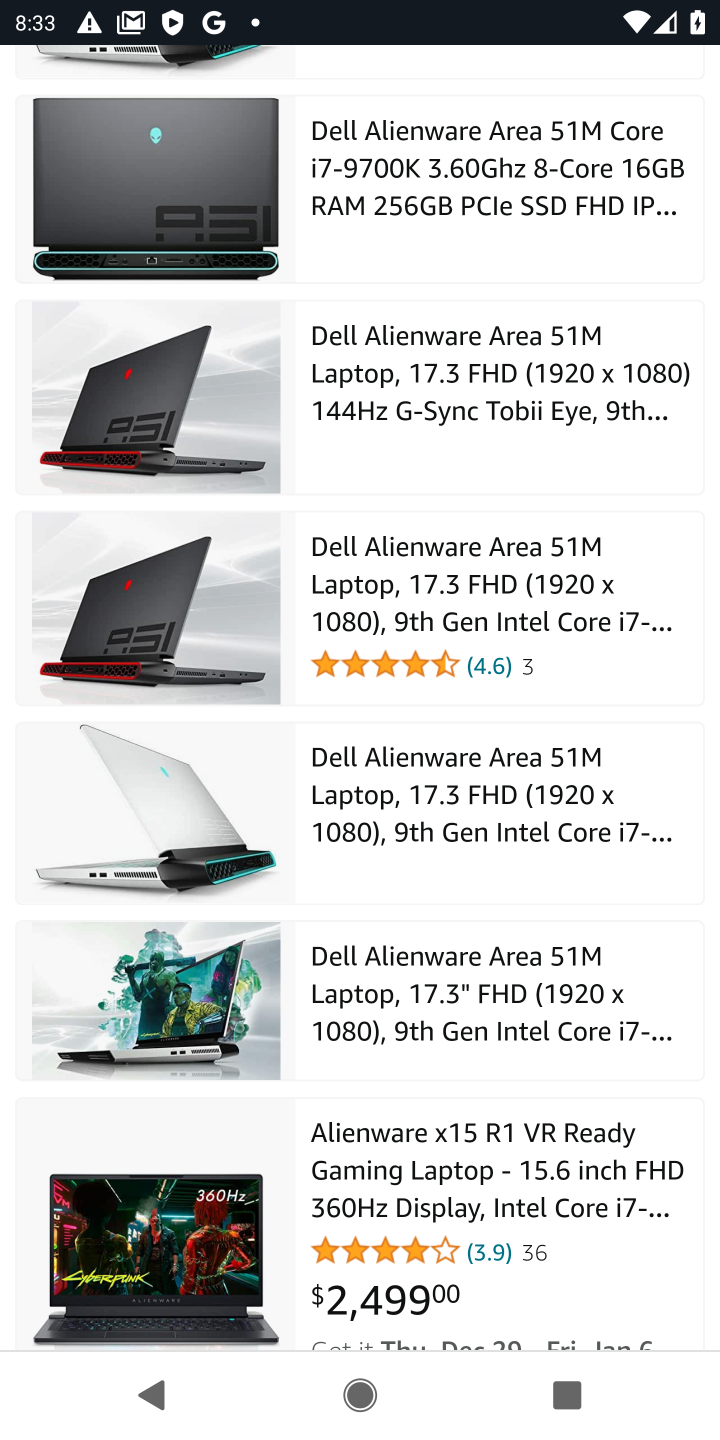
Step 27: drag from (451, 989) to (412, 491)
Your task to perform on an android device: Clear the shopping cart on amazon.com. Add alienware area 51 to the cart on amazon.com, then select checkout. Image 28: 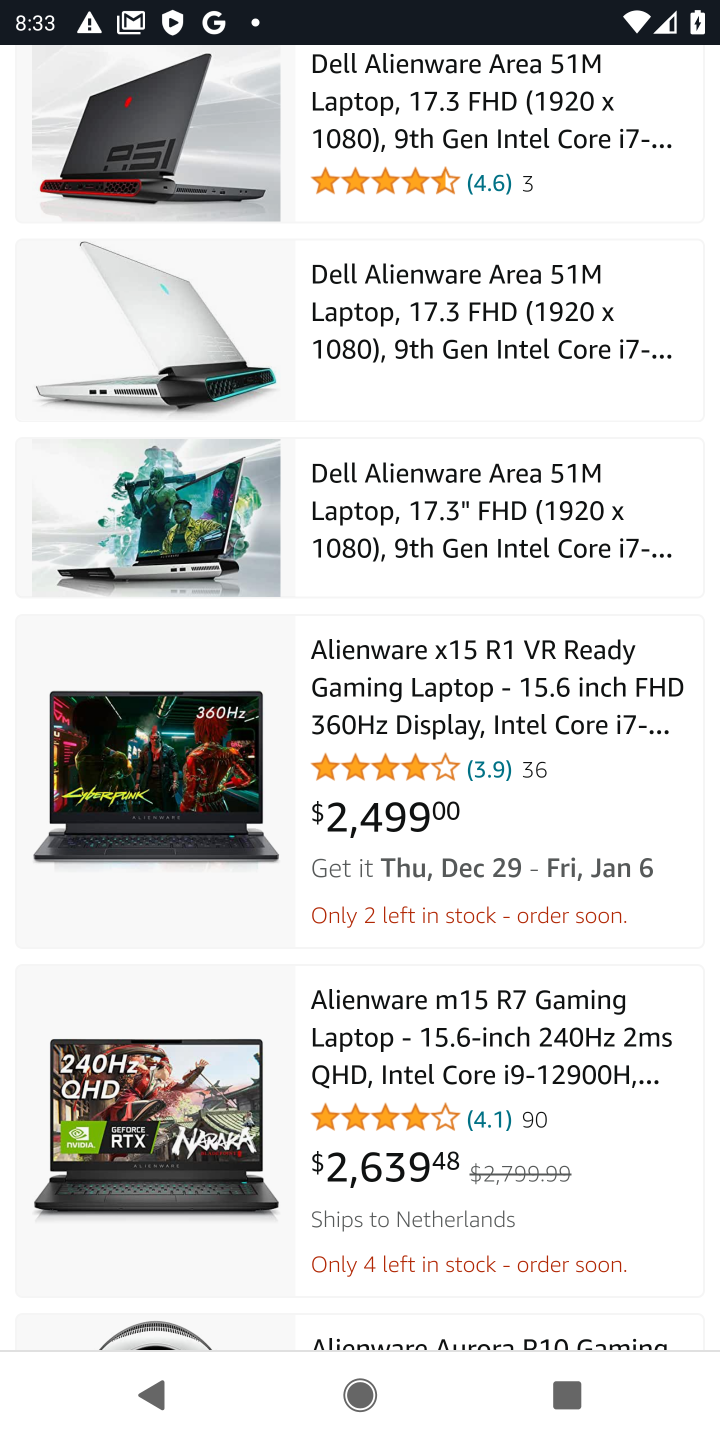
Step 28: drag from (431, 1027) to (429, 687)
Your task to perform on an android device: Clear the shopping cart on amazon.com. Add alienware area 51 to the cart on amazon.com, then select checkout. Image 29: 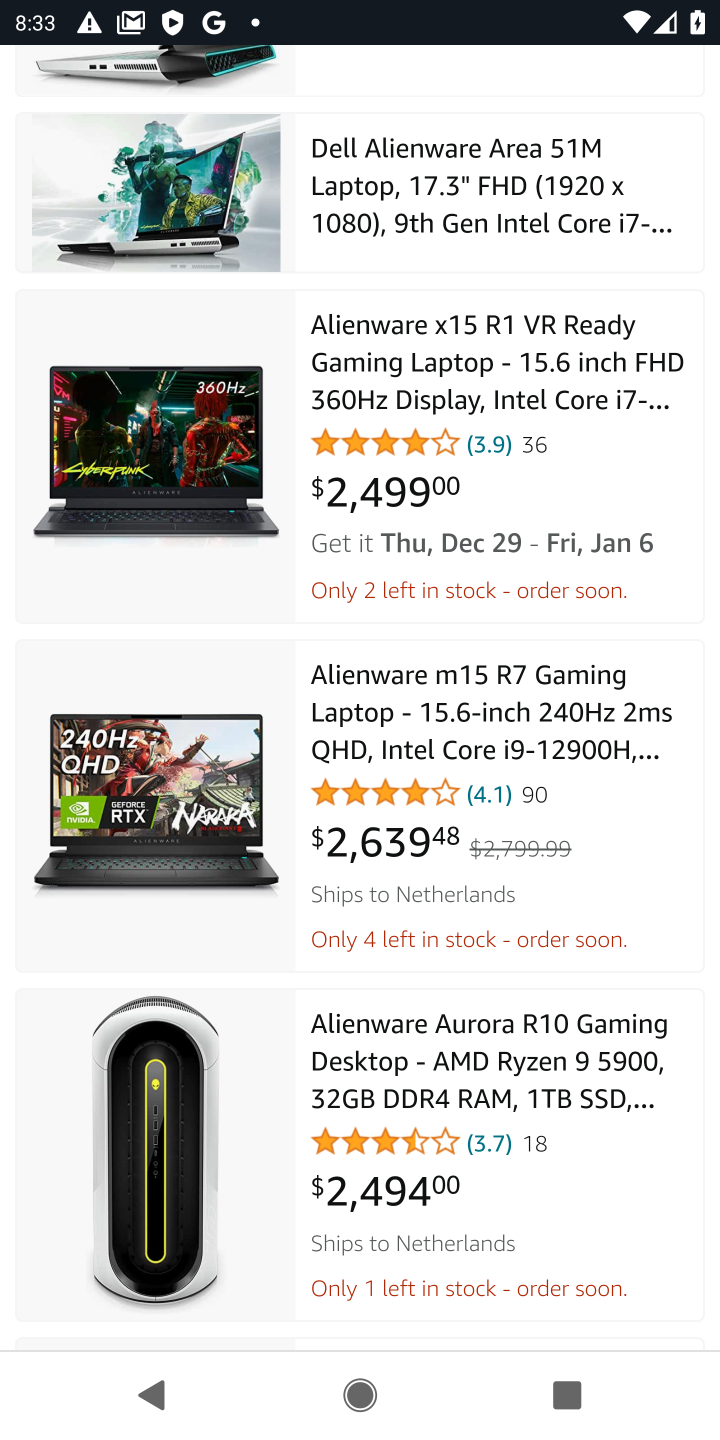
Step 29: drag from (444, 1135) to (425, 674)
Your task to perform on an android device: Clear the shopping cart on amazon.com. Add alienware area 51 to the cart on amazon.com, then select checkout. Image 30: 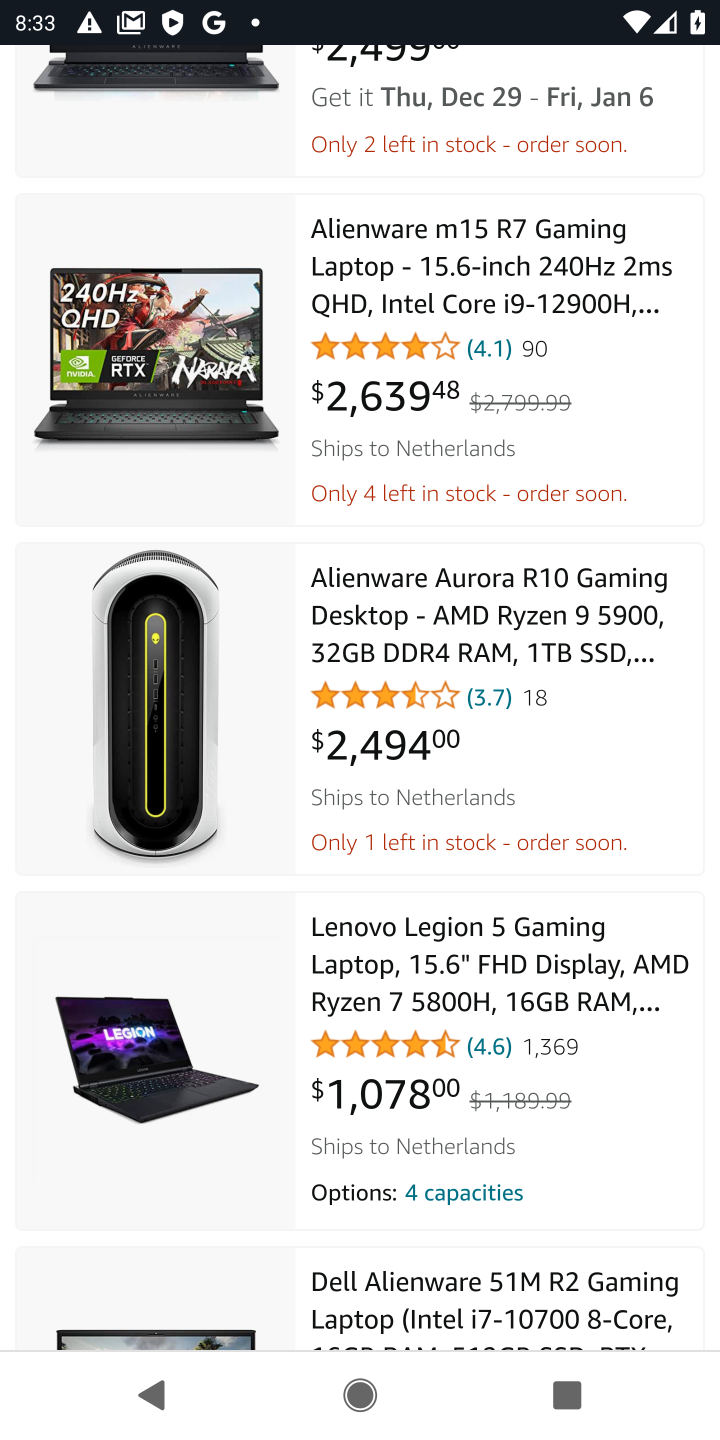
Step 30: drag from (420, 720) to (390, 1438)
Your task to perform on an android device: Clear the shopping cart on amazon.com. Add alienware area 51 to the cart on amazon.com, then select checkout. Image 31: 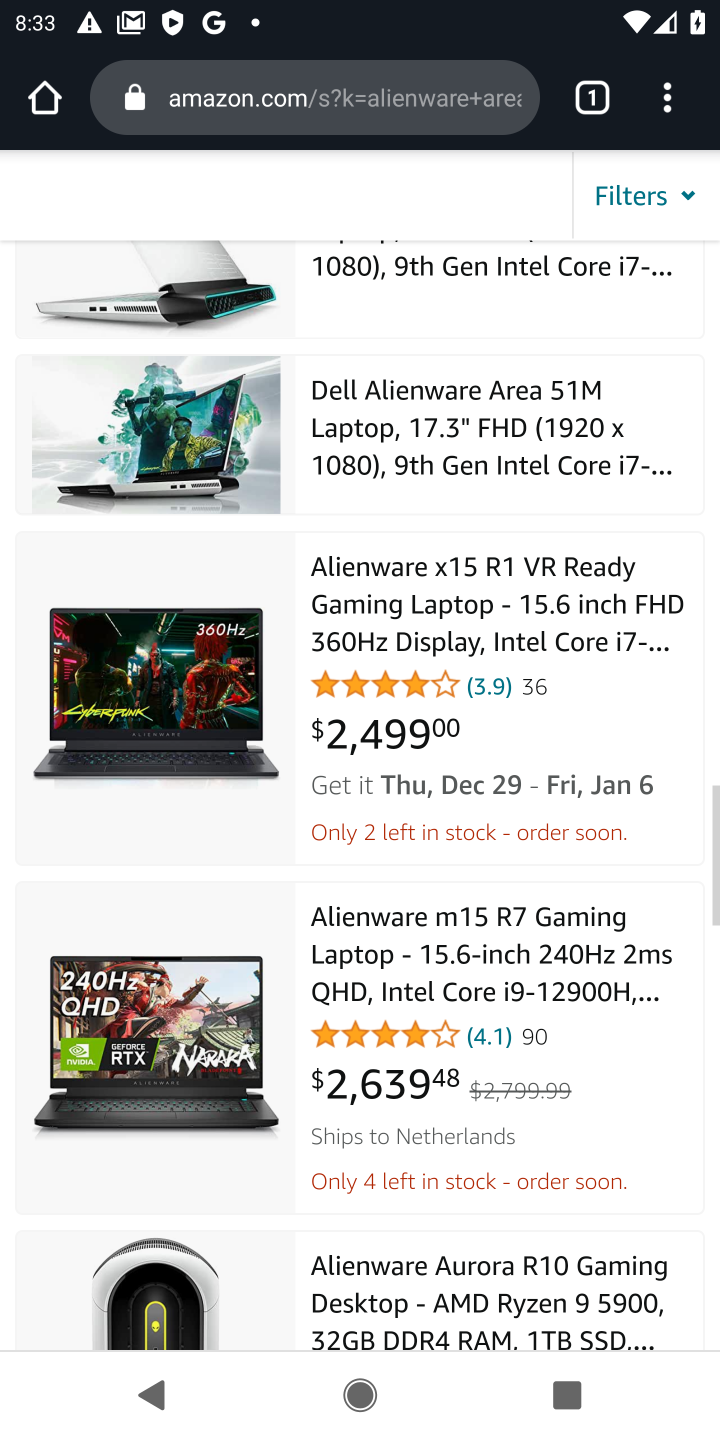
Step 31: drag from (390, 1183) to (378, 530)
Your task to perform on an android device: Clear the shopping cart on amazon.com. Add alienware area 51 to the cart on amazon.com, then select checkout. Image 32: 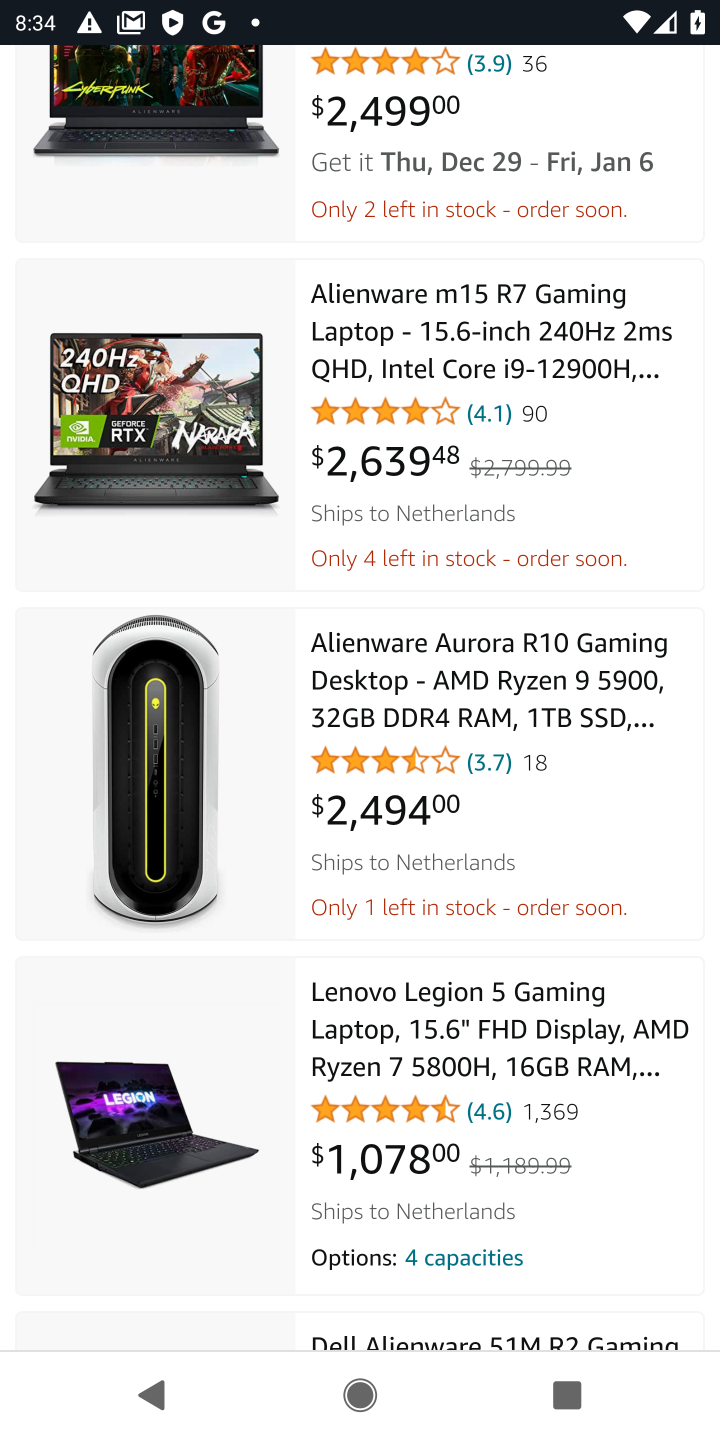
Step 32: drag from (404, 1017) to (414, 607)
Your task to perform on an android device: Clear the shopping cart on amazon.com. Add alienware area 51 to the cart on amazon.com, then select checkout. Image 33: 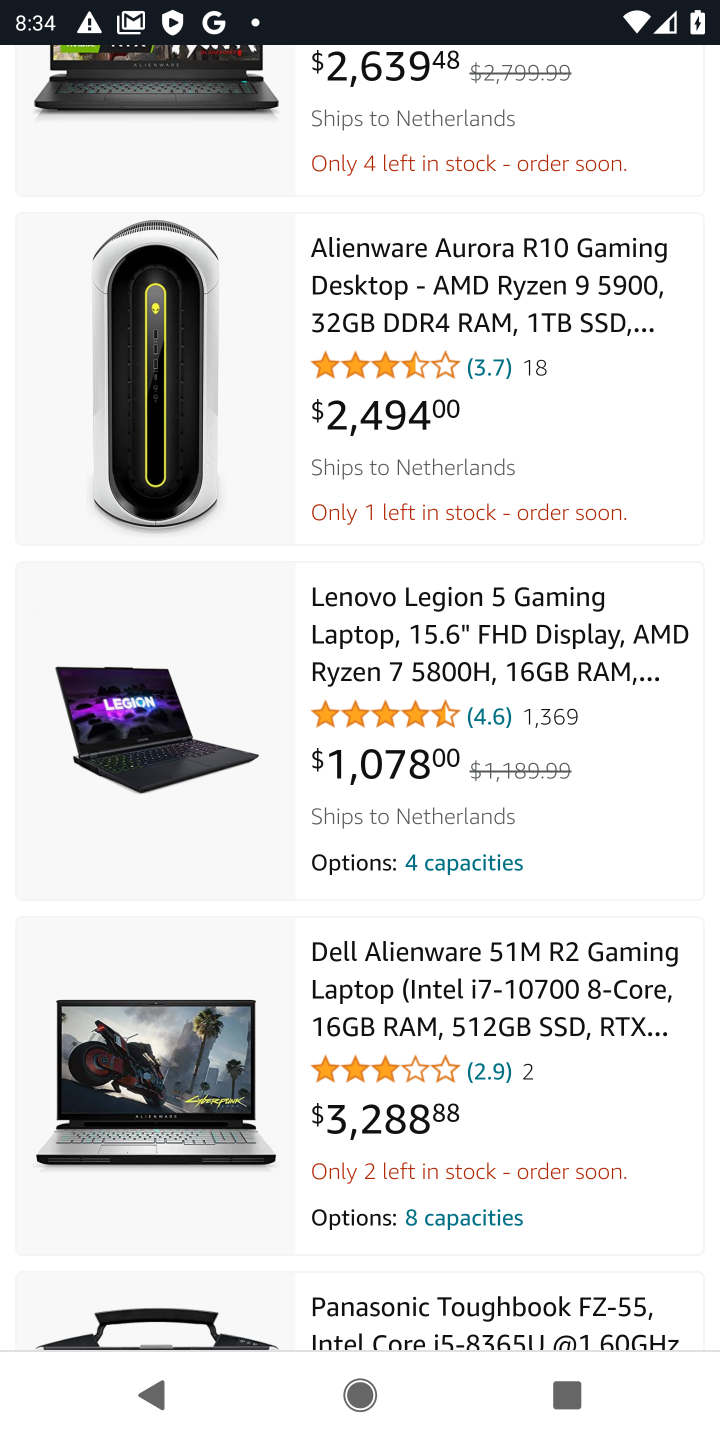
Step 33: drag from (415, 588) to (366, 1241)
Your task to perform on an android device: Clear the shopping cart on amazon.com. Add alienware area 51 to the cart on amazon.com, then select checkout. Image 34: 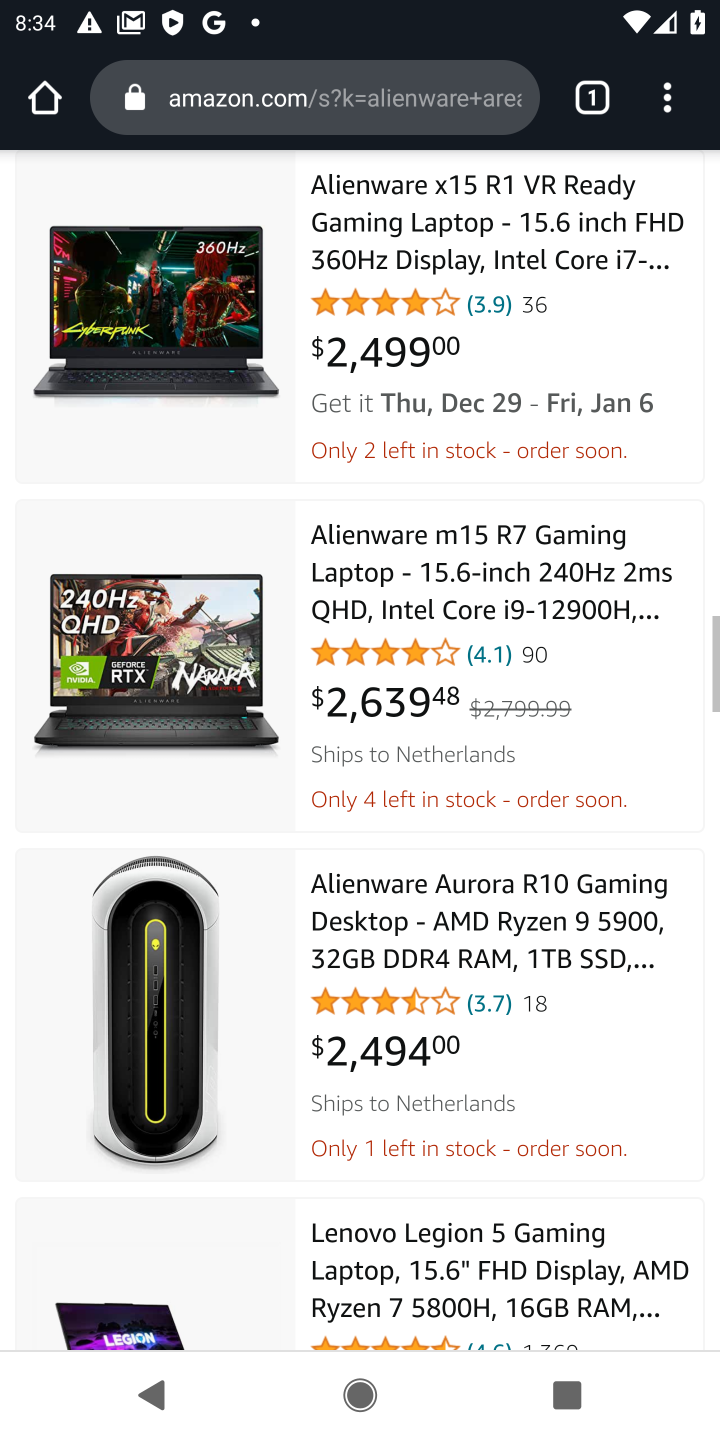
Step 34: drag from (353, 511) to (333, 1299)
Your task to perform on an android device: Clear the shopping cart on amazon.com. Add alienware area 51 to the cart on amazon.com, then select checkout. Image 35: 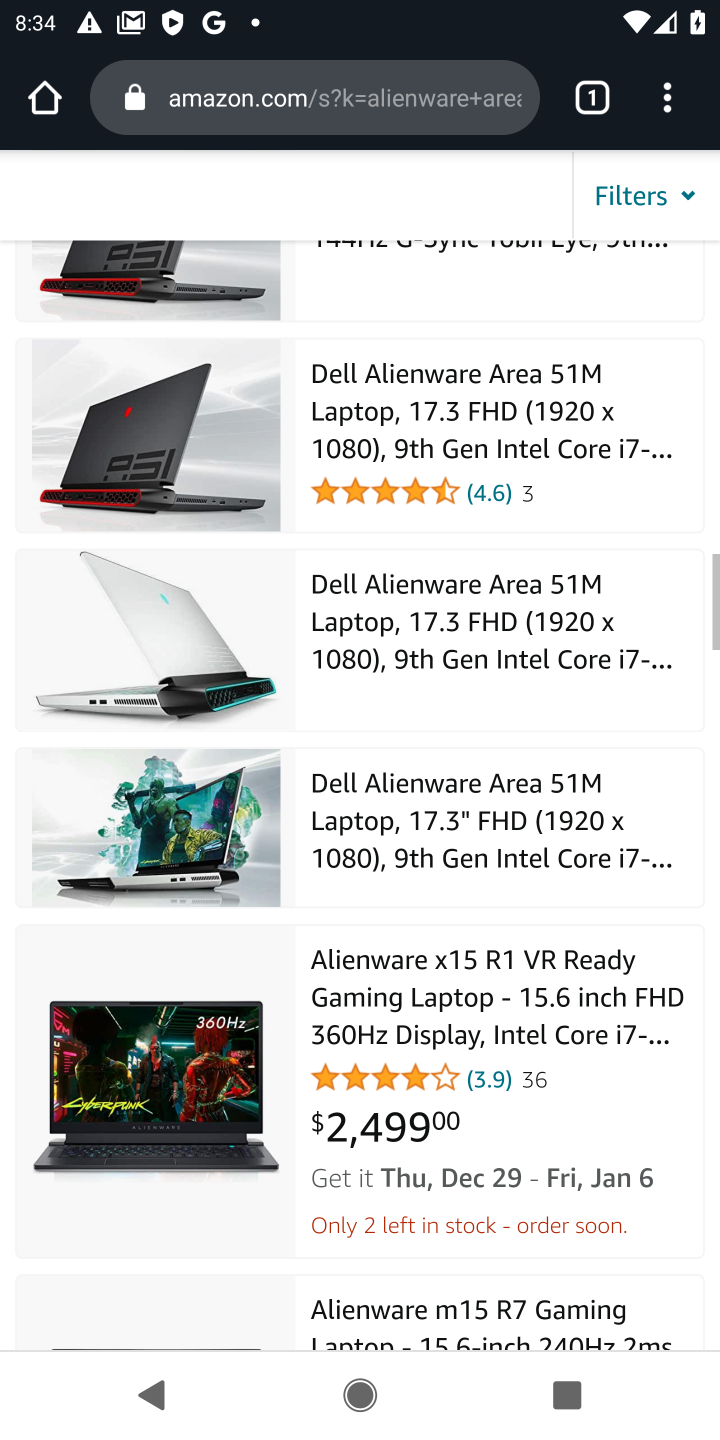
Step 35: drag from (376, 440) to (362, 1308)
Your task to perform on an android device: Clear the shopping cart on amazon.com. Add alienware area 51 to the cart on amazon.com, then select checkout. Image 36: 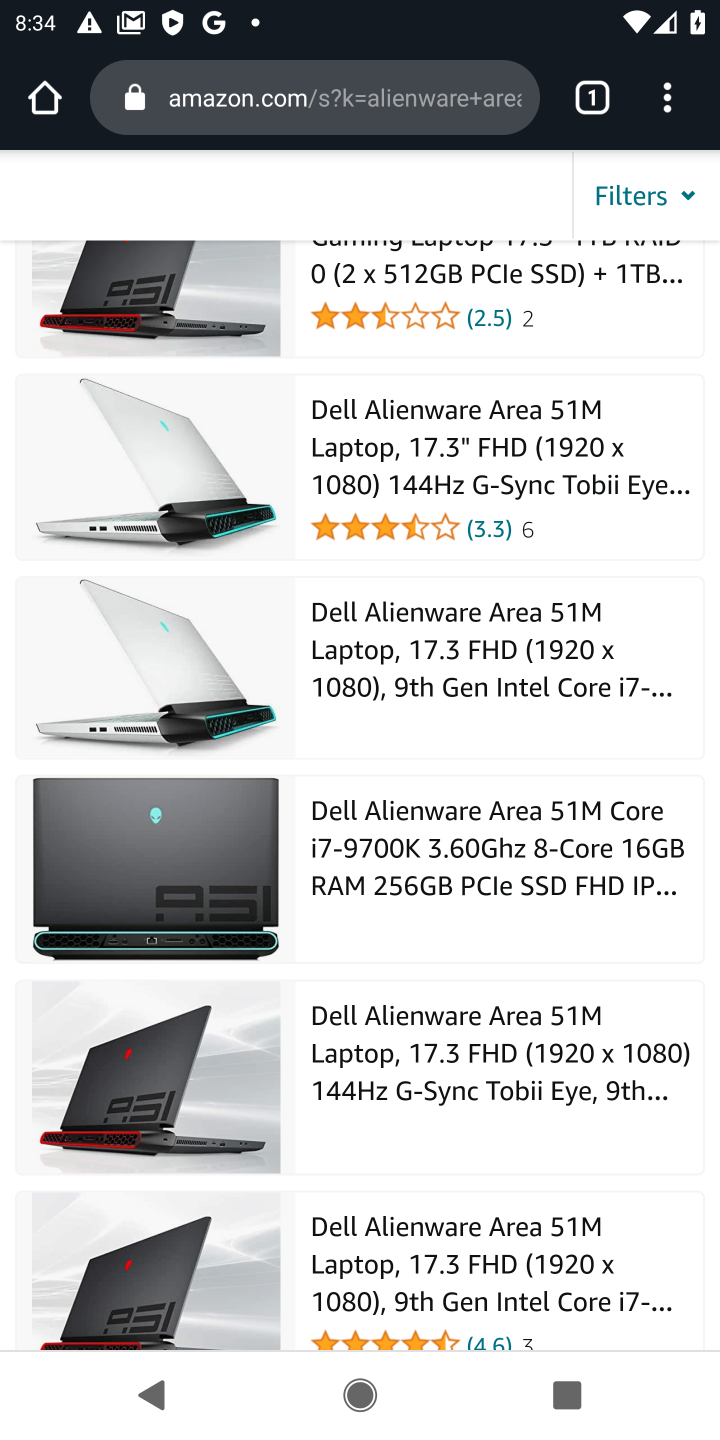
Step 36: drag from (338, 700) to (313, 1256)
Your task to perform on an android device: Clear the shopping cart on amazon.com. Add alienware area 51 to the cart on amazon.com, then select checkout. Image 37: 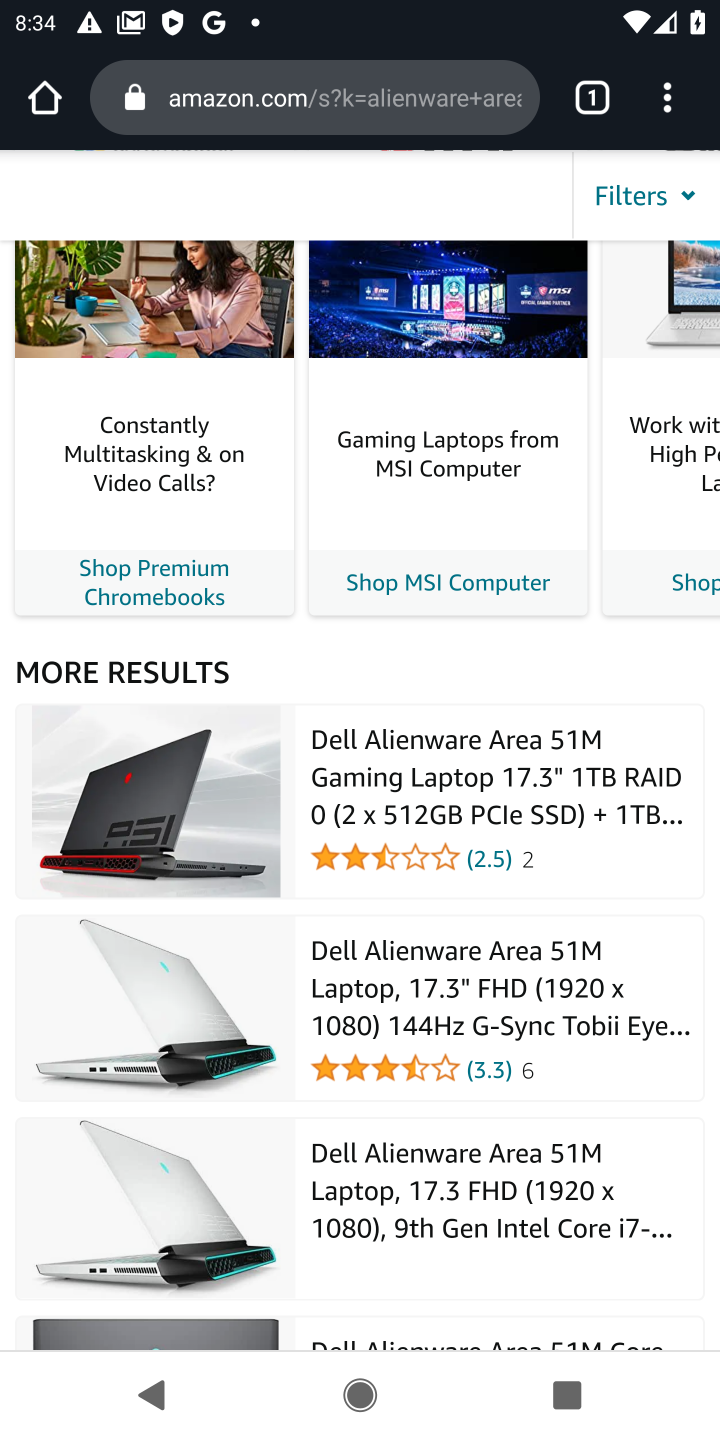
Step 37: drag from (362, 989) to (354, 1400)
Your task to perform on an android device: Clear the shopping cart on amazon.com. Add alienware area 51 to the cart on amazon.com, then select checkout. Image 38: 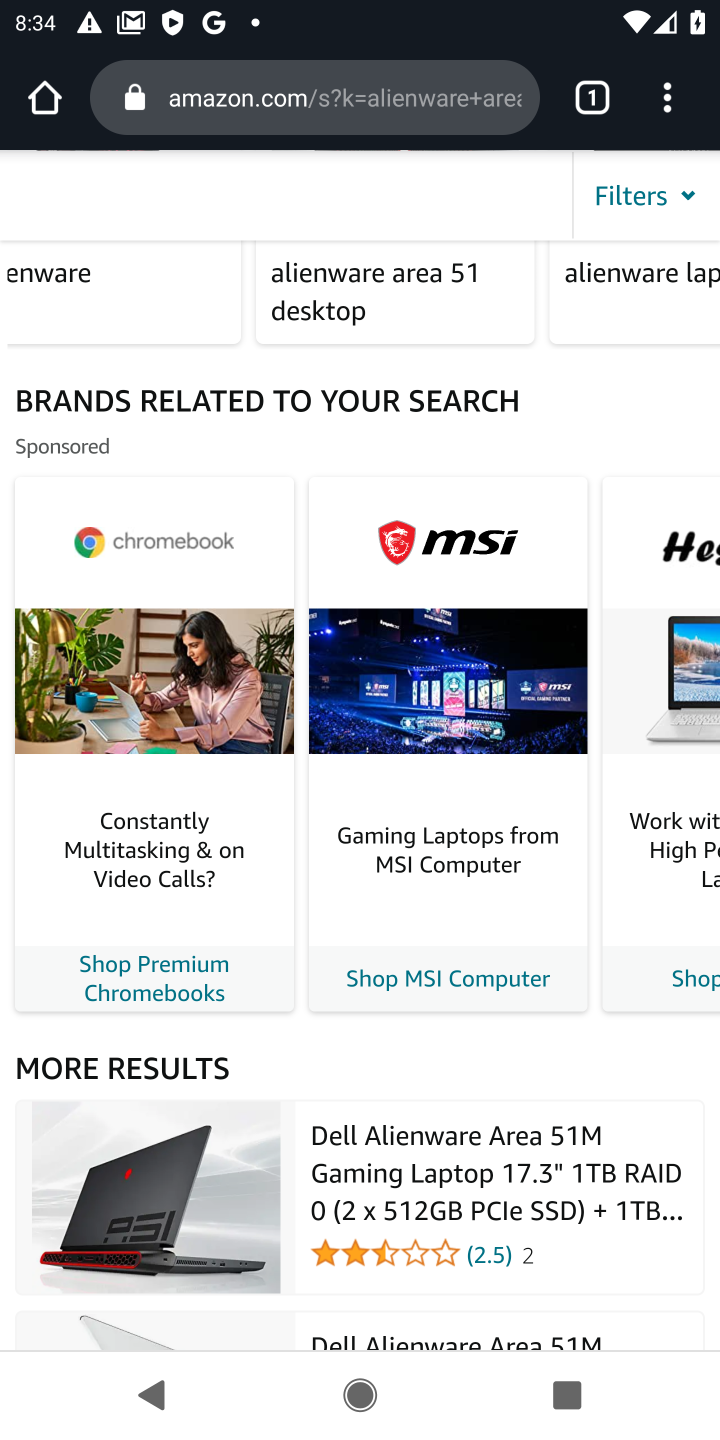
Step 38: drag from (375, 623) to (366, 1146)
Your task to perform on an android device: Clear the shopping cart on amazon.com. Add alienware area 51 to the cart on amazon.com, then select checkout. Image 39: 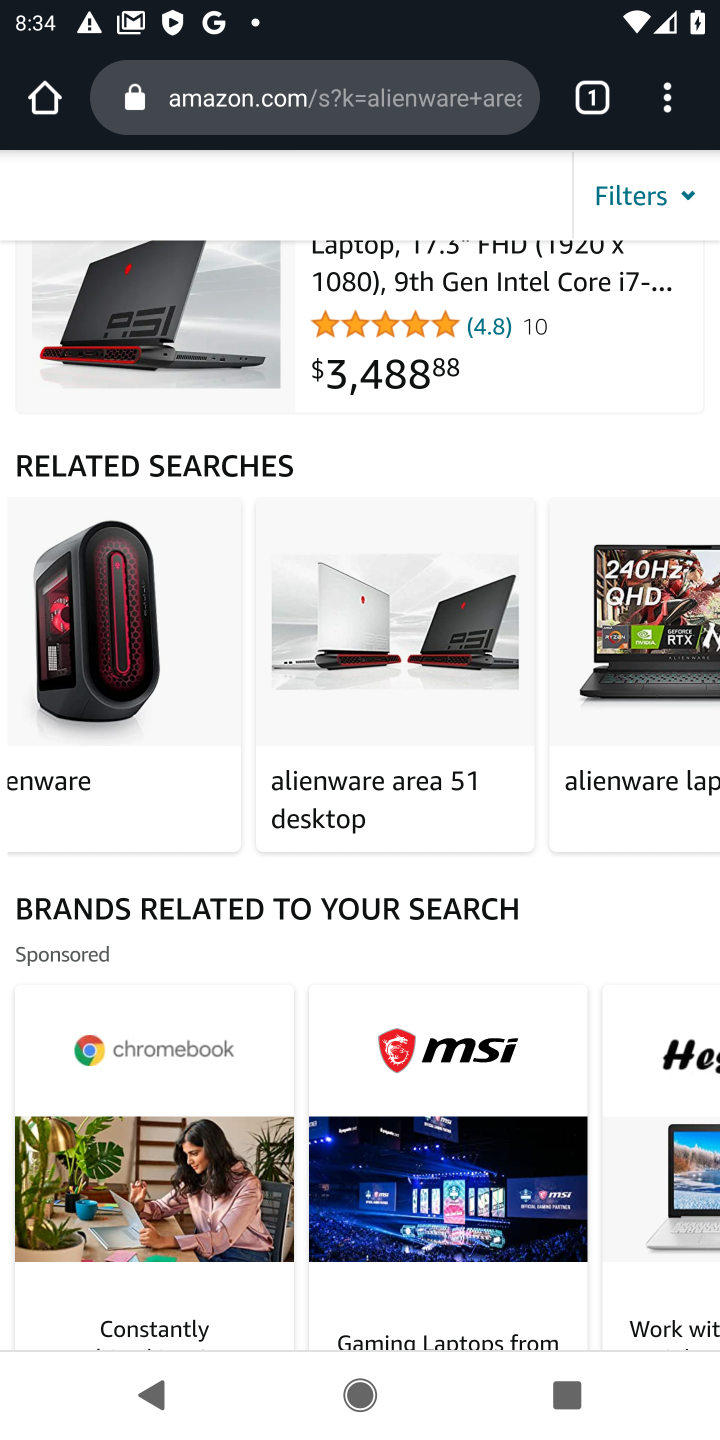
Step 39: drag from (402, 597) to (409, 1211)
Your task to perform on an android device: Clear the shopping cart on amazon.com. Add alienware area 51 to the cart on amazon.com, then select checkout. Image 40: 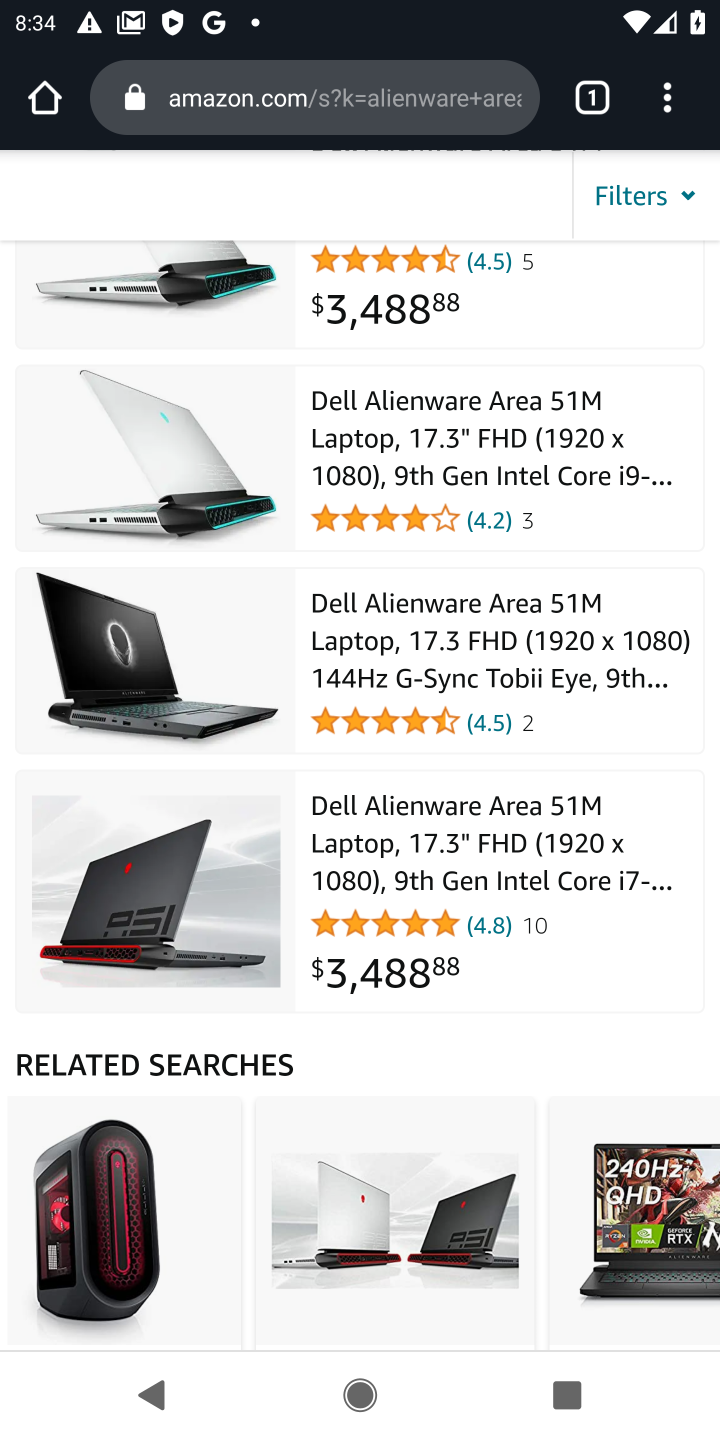
Step 40: drag from (310, 719) to (332, 1106)
Your task to perform on an android device: Clear the shopping cart on amazon.com. Add alienware area 51 to the cart on amazon.com, then select checkout. Image 41: 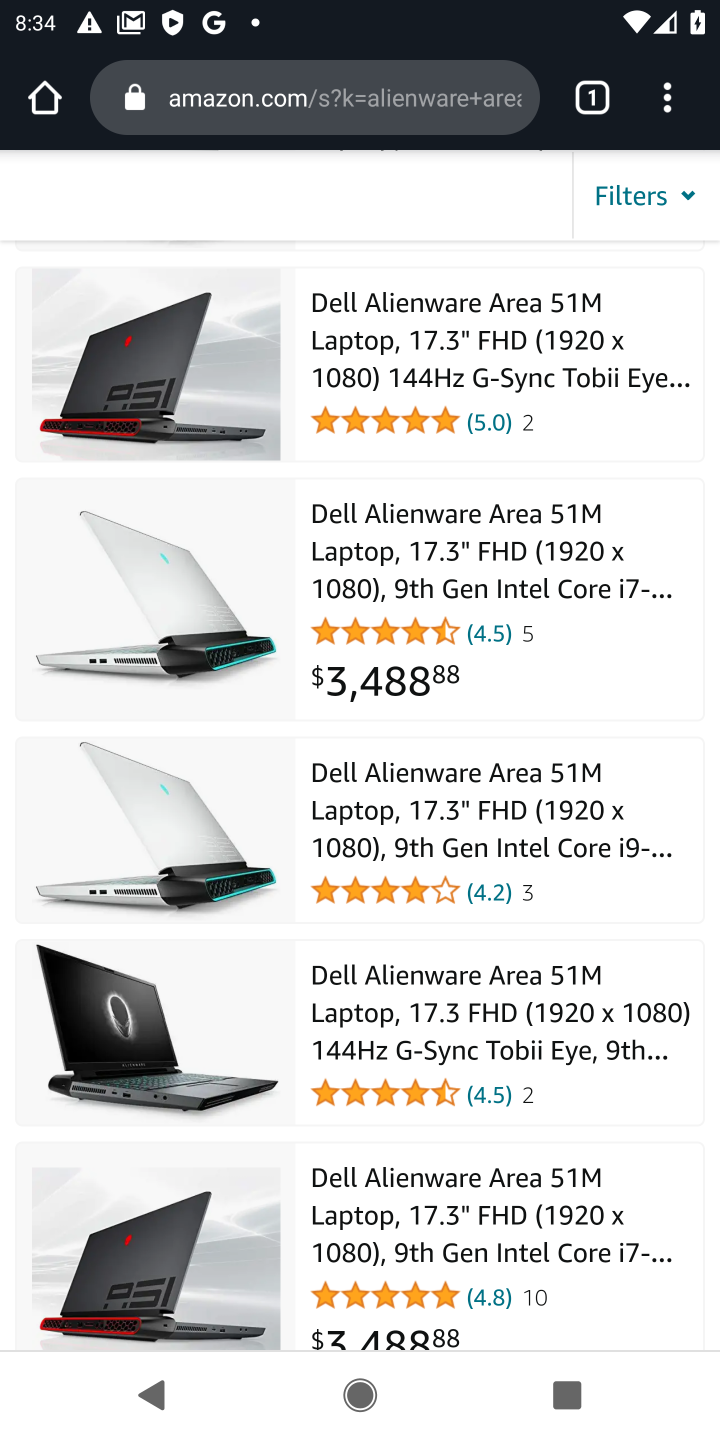
Step 41: drag from (260, 592) to (372, 1207)
Your task to perform on an android device: Clear the shopping cart on amazon.com. Add alienware area 51 to the cart on amazon.com, then select checkout. Image 42: 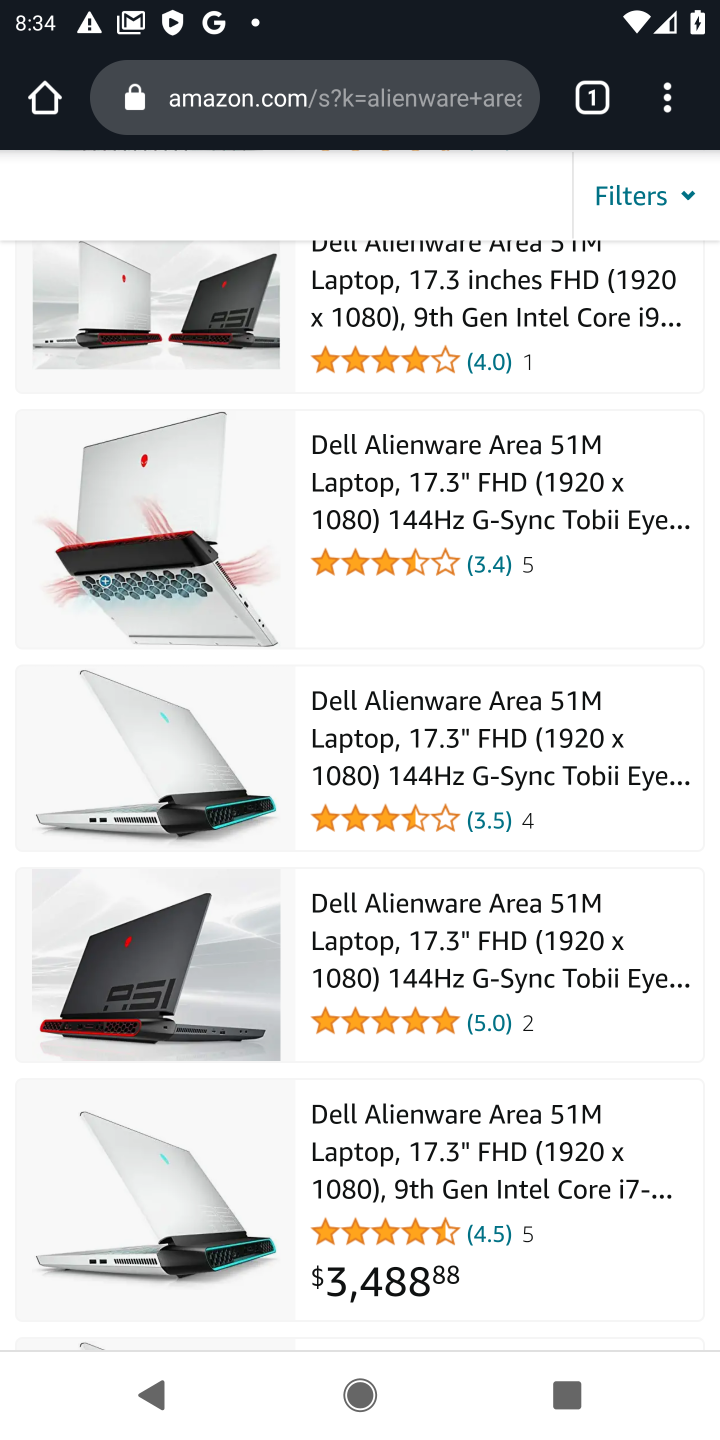
Step 42: click (496, 734)
Your task to perform on an android device: Clear the shopping cart on amazon.com. Add alienware area 51 to the cart on amazon.com, then select checkout. Image 43: 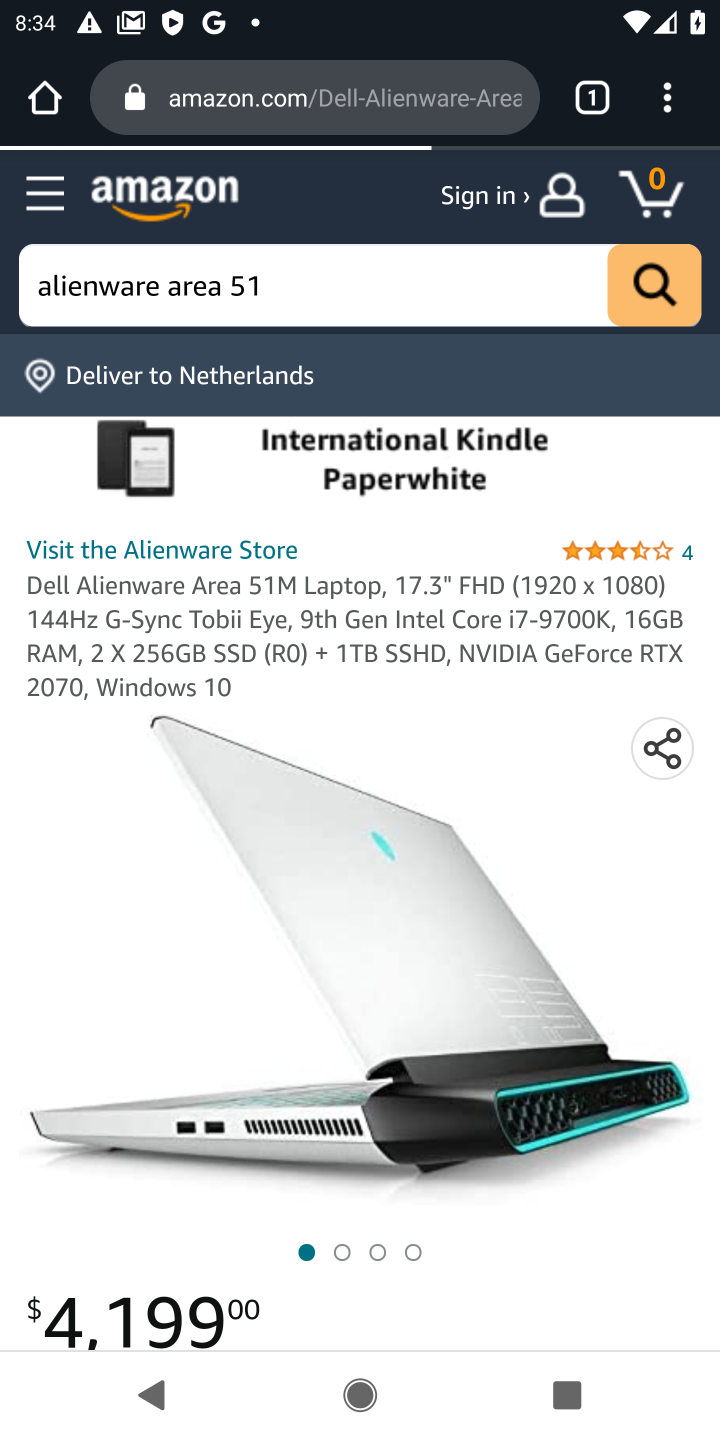
Step 43: drag from (385, 1072) to (342, 274)
Your task to perform on an android device: Clear the shopping cart on amazon.com. Add alienware area 51 to the cart on amazon.com, then select checkout. Image 44: 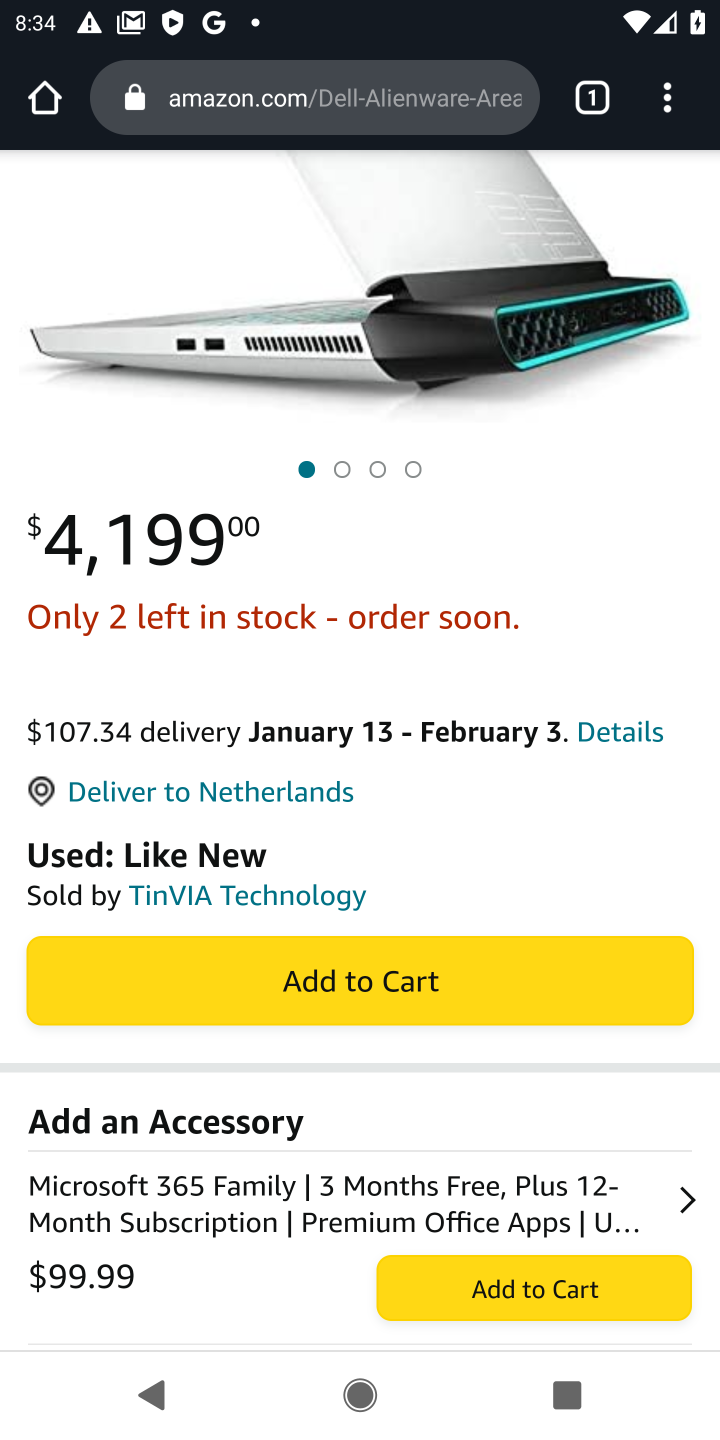
Step 44: click (361, 985)
Your task to perform on an android device: Clear the shopping cart on amazon.com. Add alienware area 51 to the cart on amazon.com, then select checkout. Image 45: 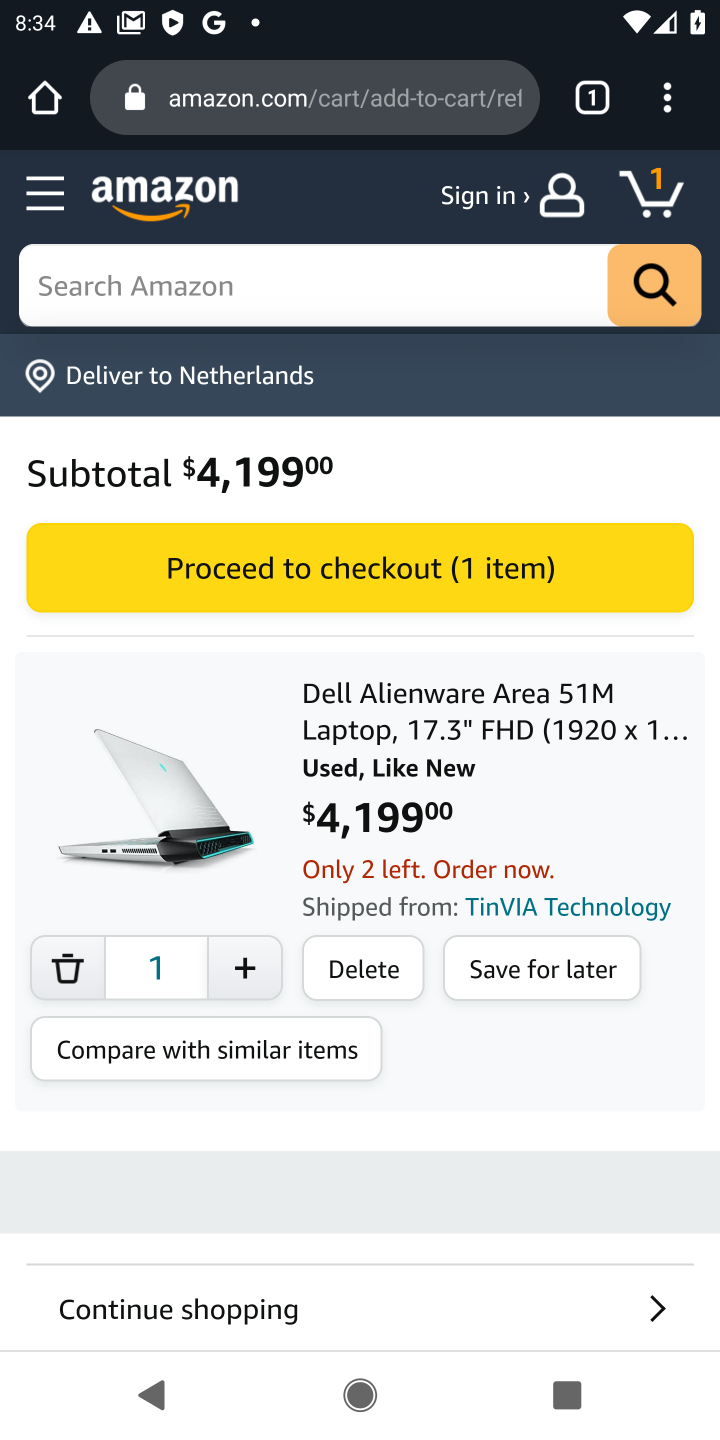
Step 45: click (301, 555)
Your task to perform on an android device: Clear the shopping cart on amazon.com. Add alienware area 51 to the cart on amazon.com, then select checkout. Image 46: 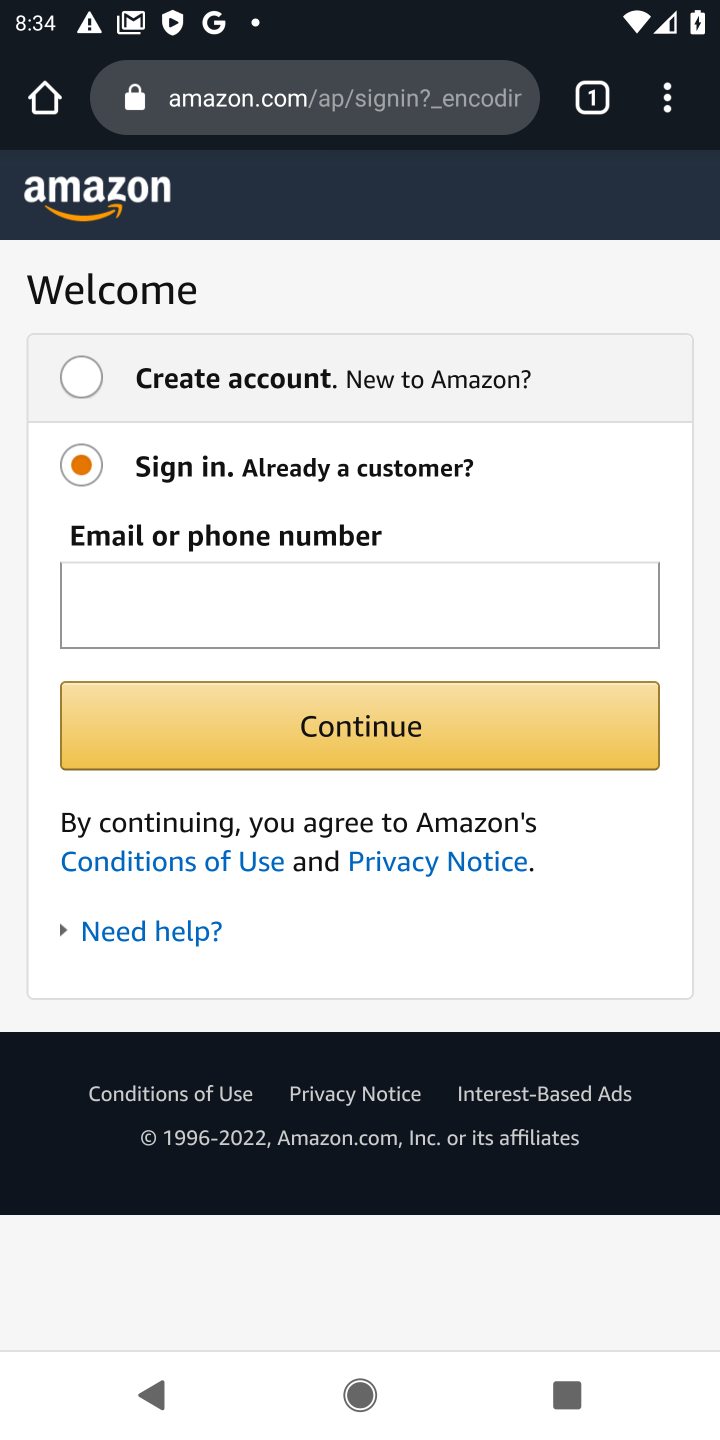
Step 46: task complete